Your task to perform on an android device: Add "macbook" to the cart on newegg.com, then select checkout. Image 0: 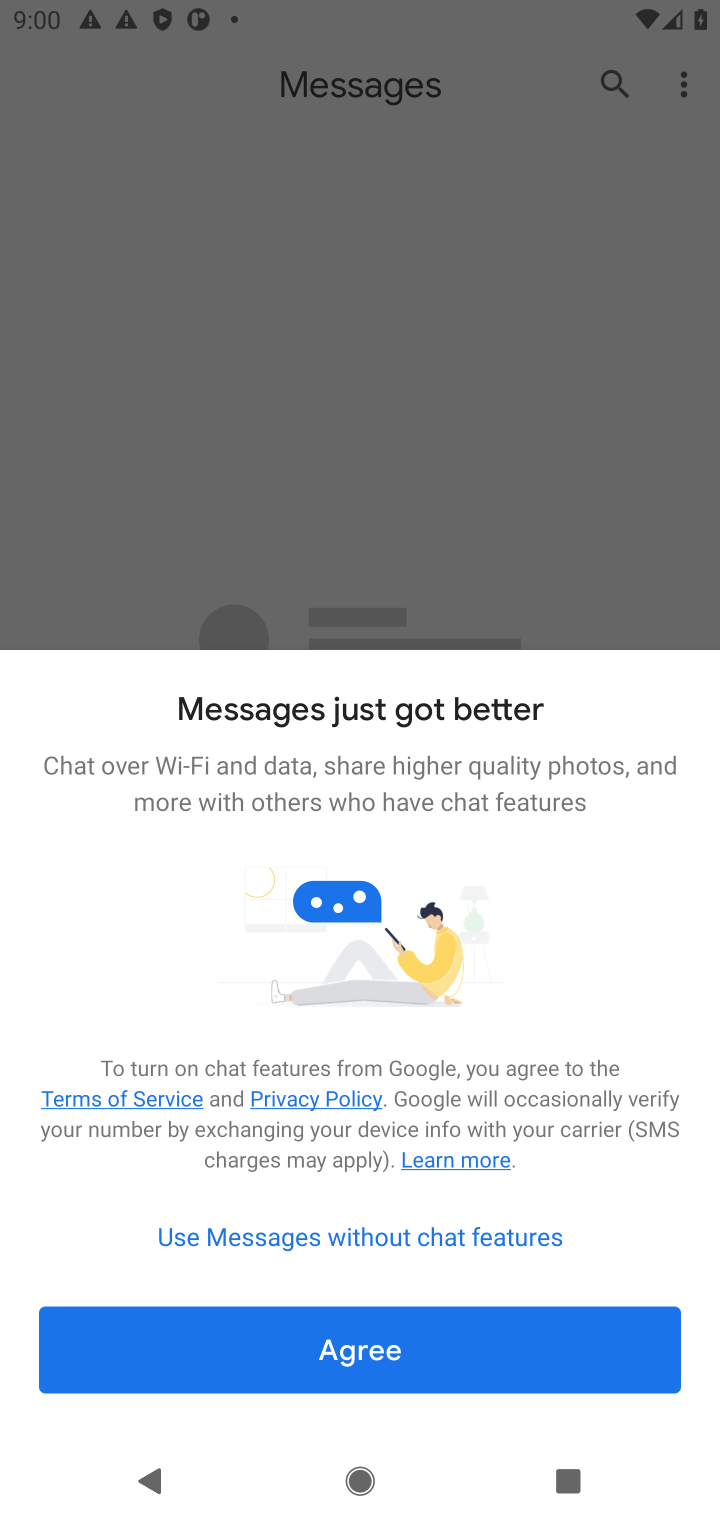
Step 0: press home button
Your task to perform on an android device: Add "macbook" to the cart on newegg.com, then select checkout. Image 1: 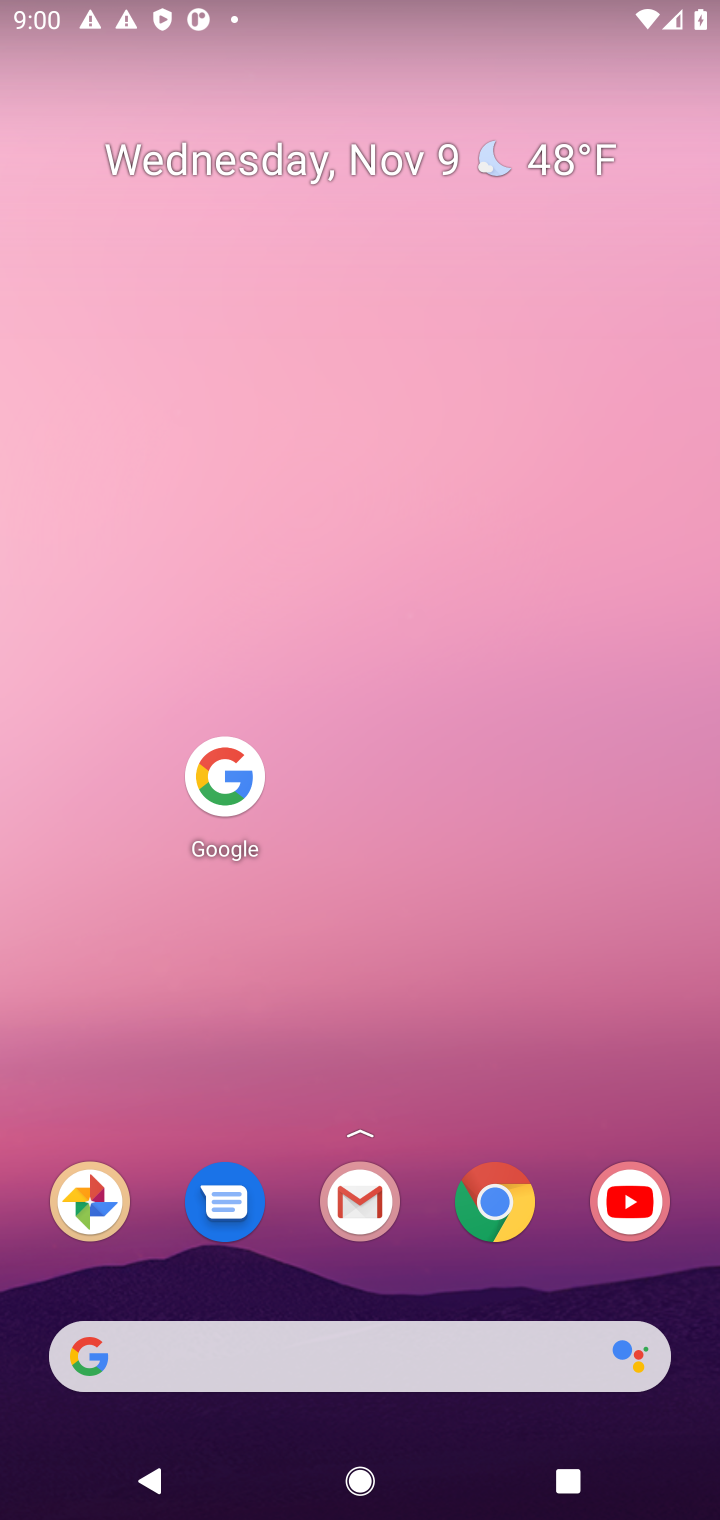
Step 1: click (208, 776)
Your task to perform on an android device: Add "macbook" to the cart on newegg.com, then select checkout. Image 2: 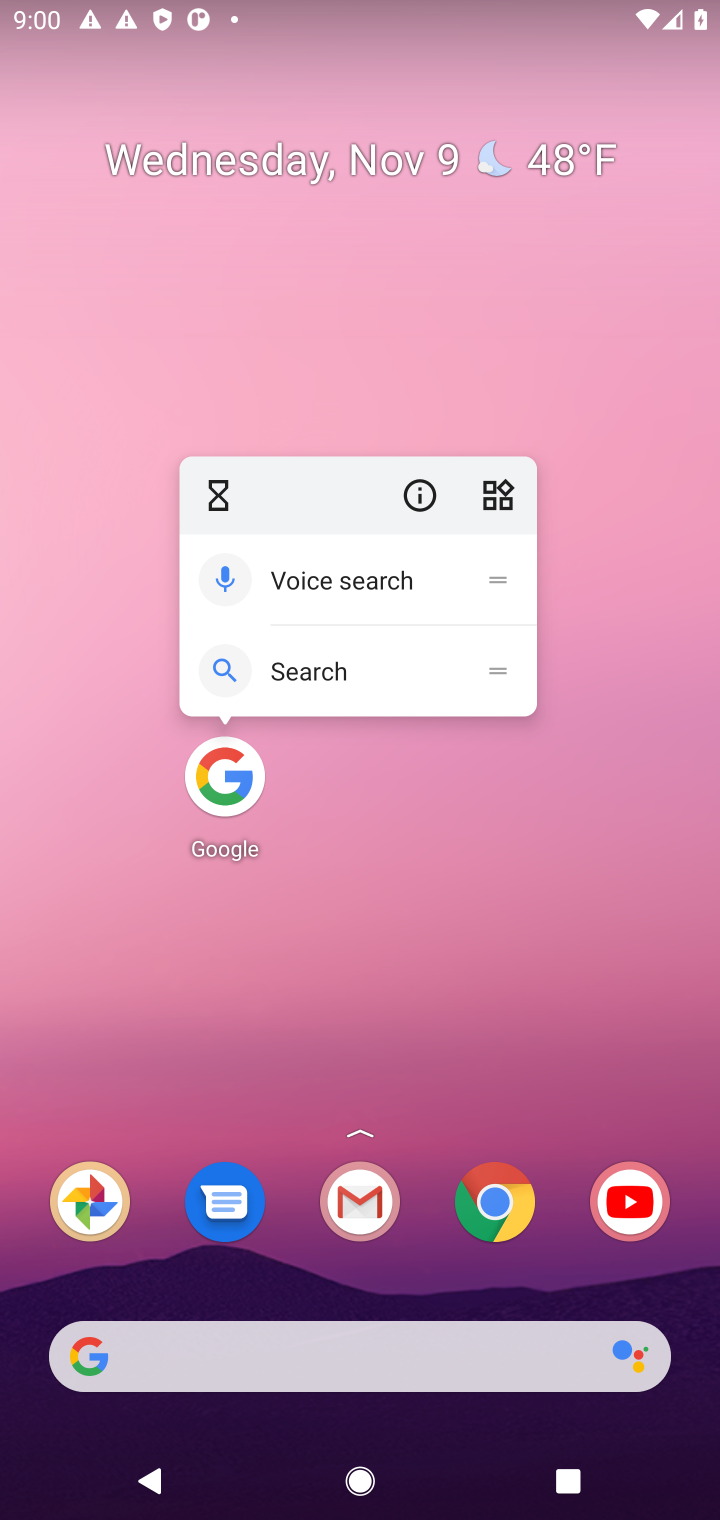
Step 2: click (230, 743)
Your task to perform on an android device: Add "macbook" to the cart on newegg.com, then select checkout. Image 3: 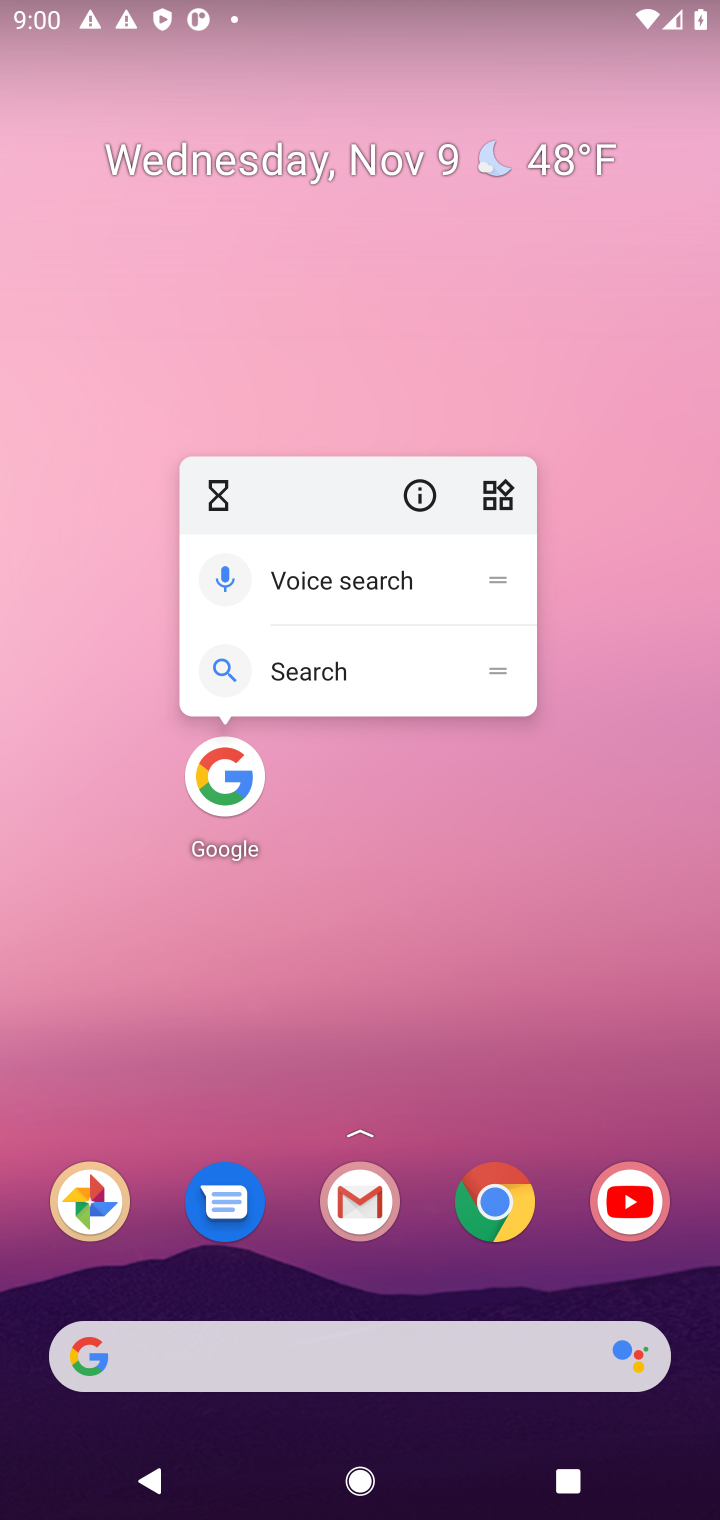
Step 3: click (202, 776)
Your task to perform on an android device: Add "macbook" to the cart on newegg.com, then select checkout. Image 4: 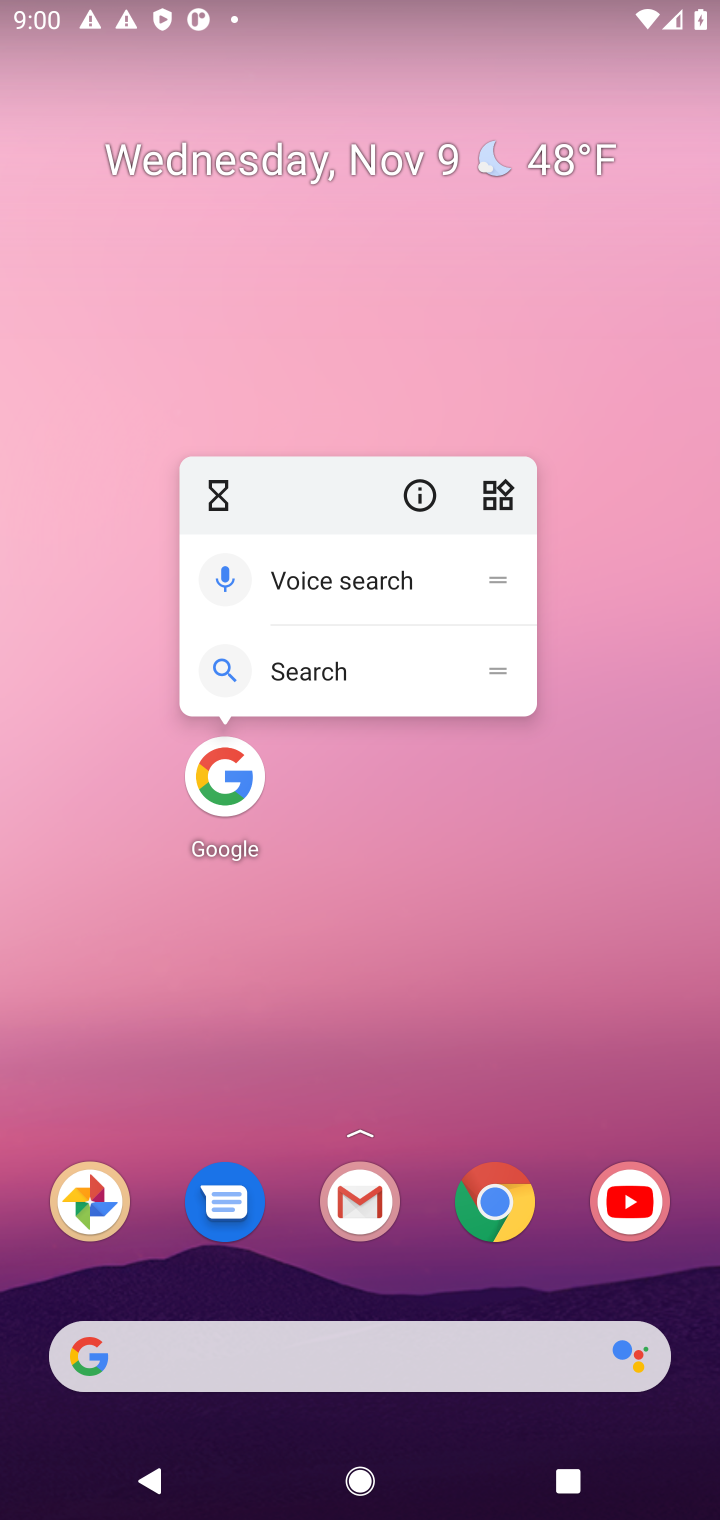
Step 4: click (213, 780)
Your task to perform on an android device: Add "macbook" to the cart on newegg.com, then select checkout. Image 5: 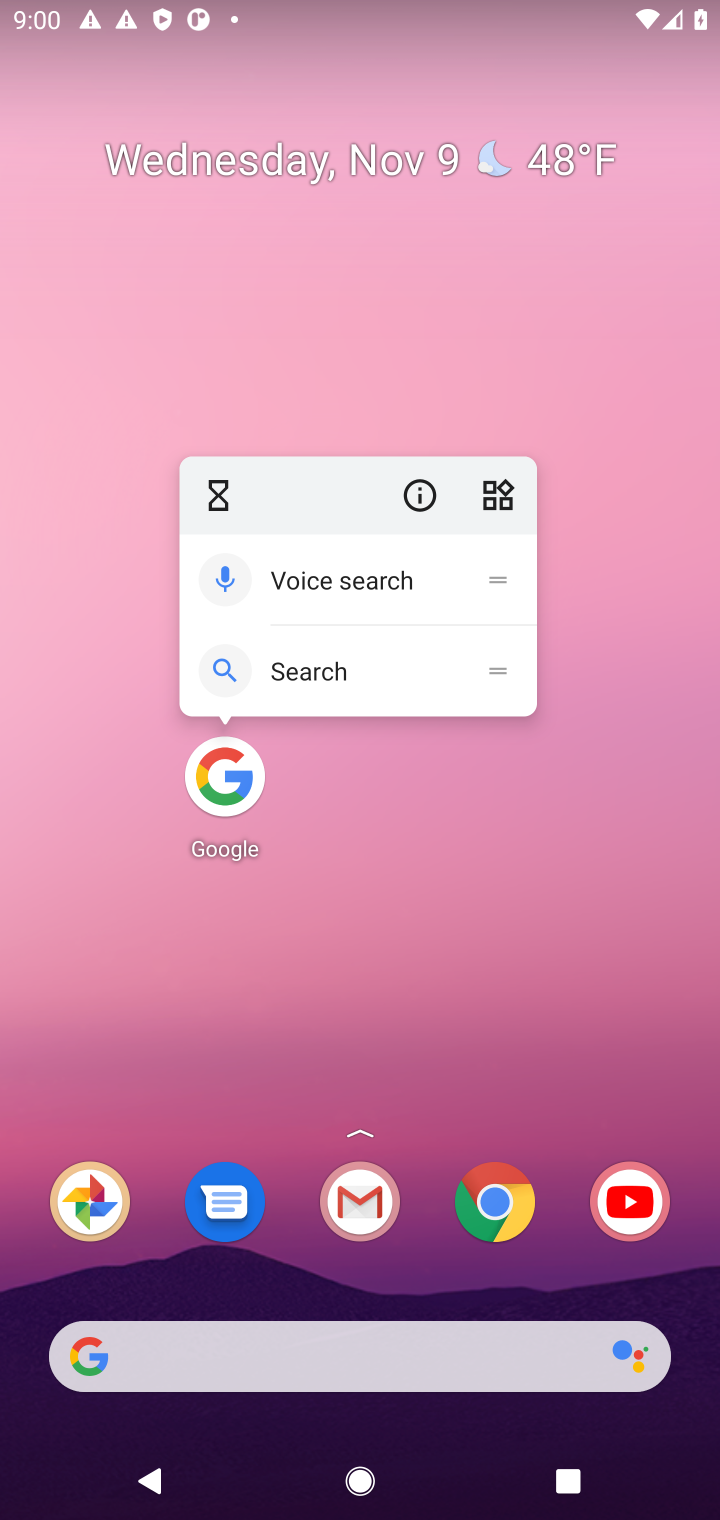
Step 5: click (213, 780)
Your task to perform on an android device: Add "macbook" to the cart on newegg.com, then select checkout. Image 6: 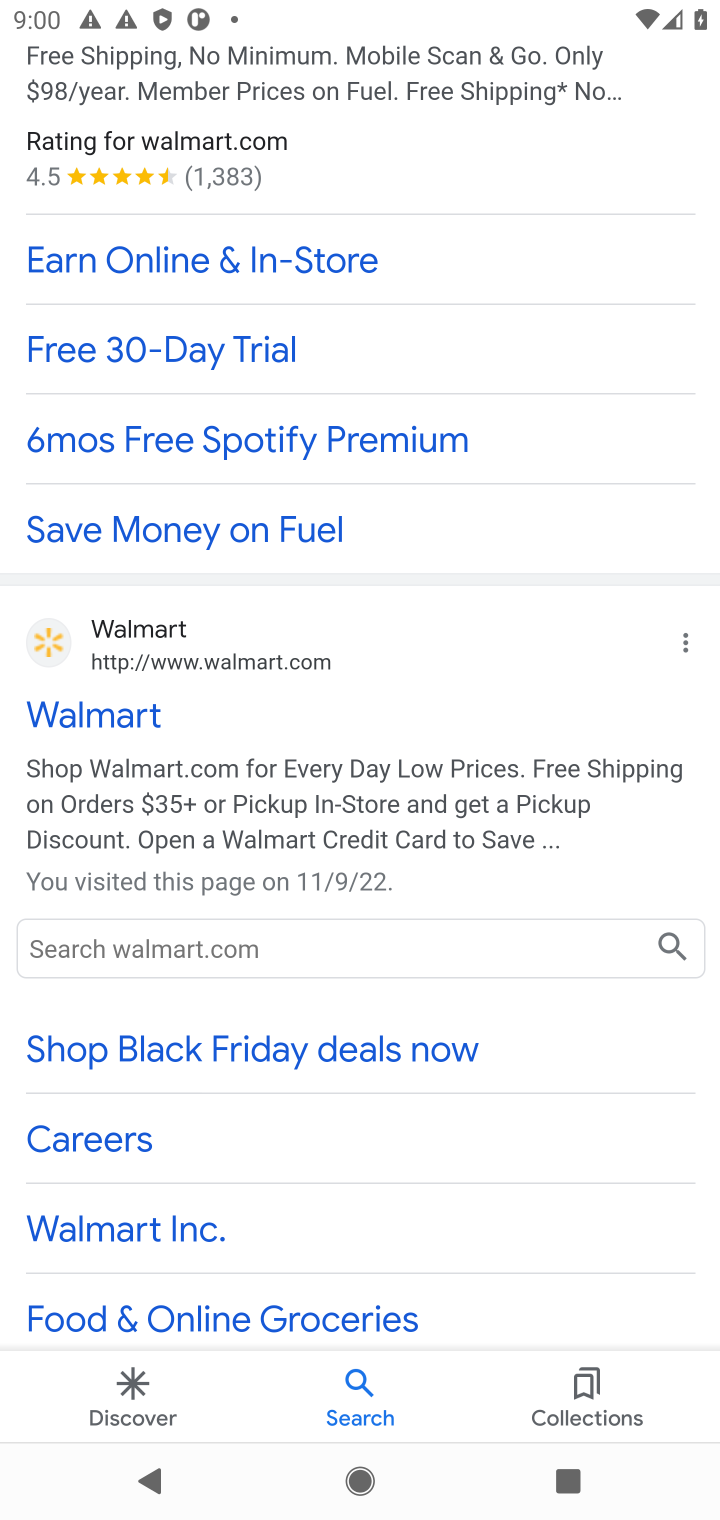
Step 6: drag from (549, 147) to (453, 1299)
Your task to perform on an android device: Add "macbook" to the cart on newegg.com, then select checkout. Image 7: 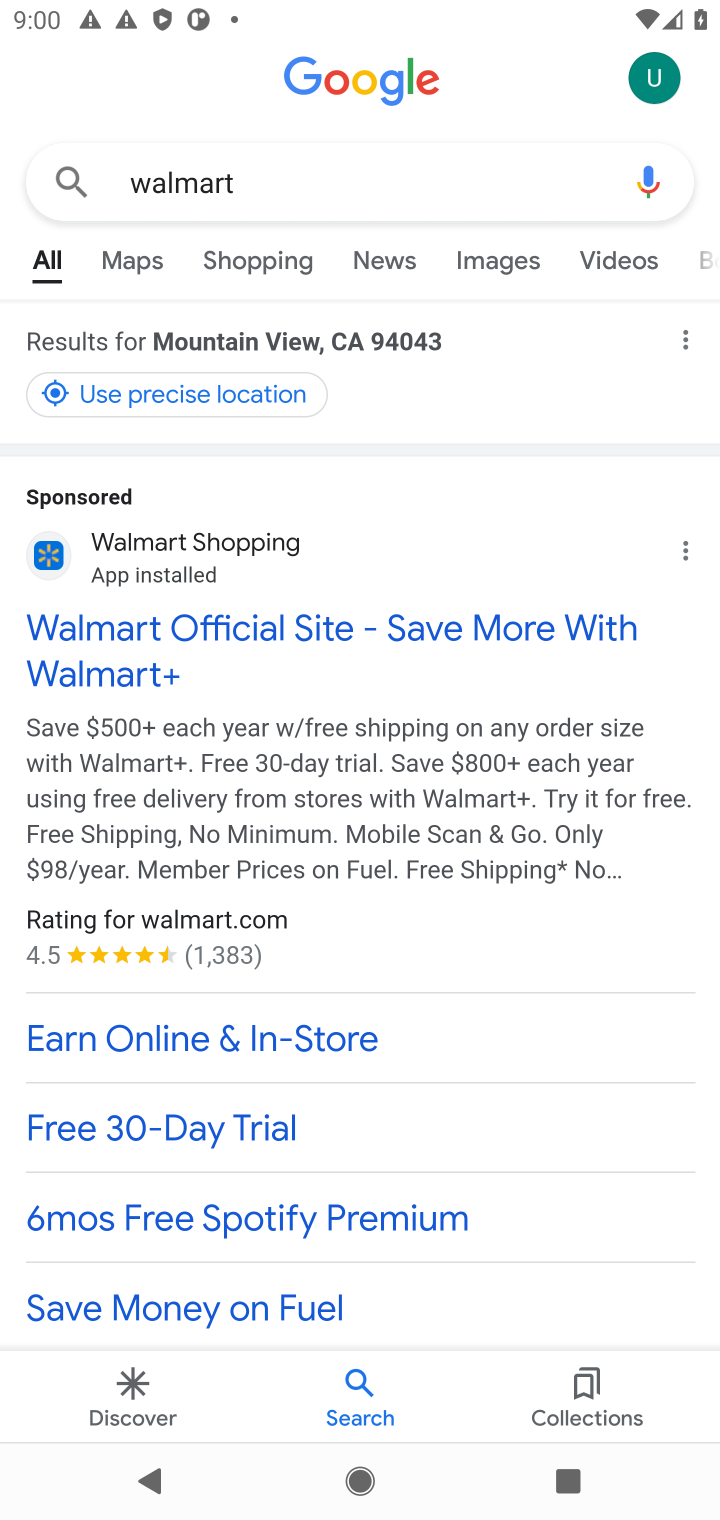
Step 7: click (331, 165)
Your task to perform on an android device: Add "macbook" to the cart on newegg.com, then select checkout. Image 8: 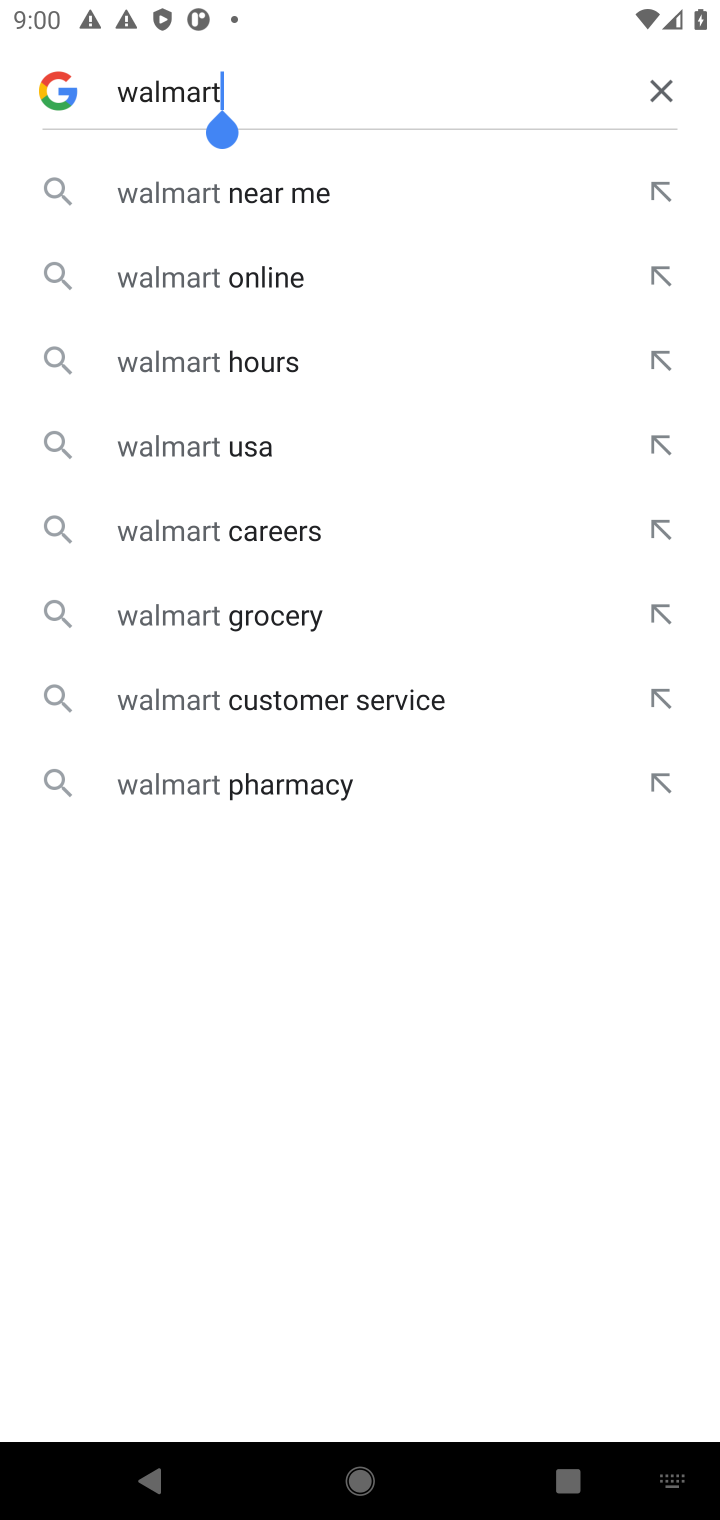
Step 8: click (651, 93)
Your task to perform on an android device: Add "macbook" to the cart on newegg.com, then select checkout. Image 9: 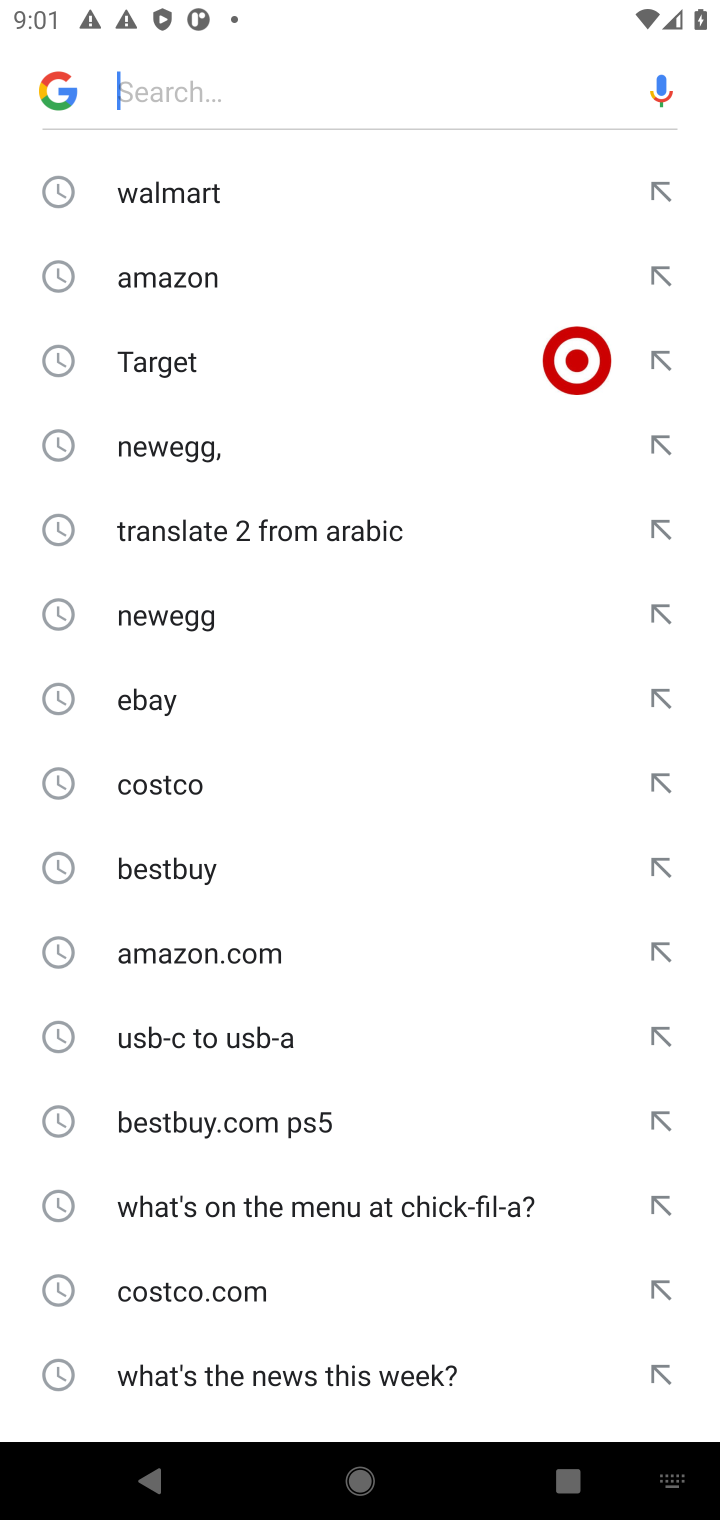
Step 9: click (109, 614)
Your task to perform on an android device: Add "macbook" to the cart on newegg.com, then select checkout. Image 10: 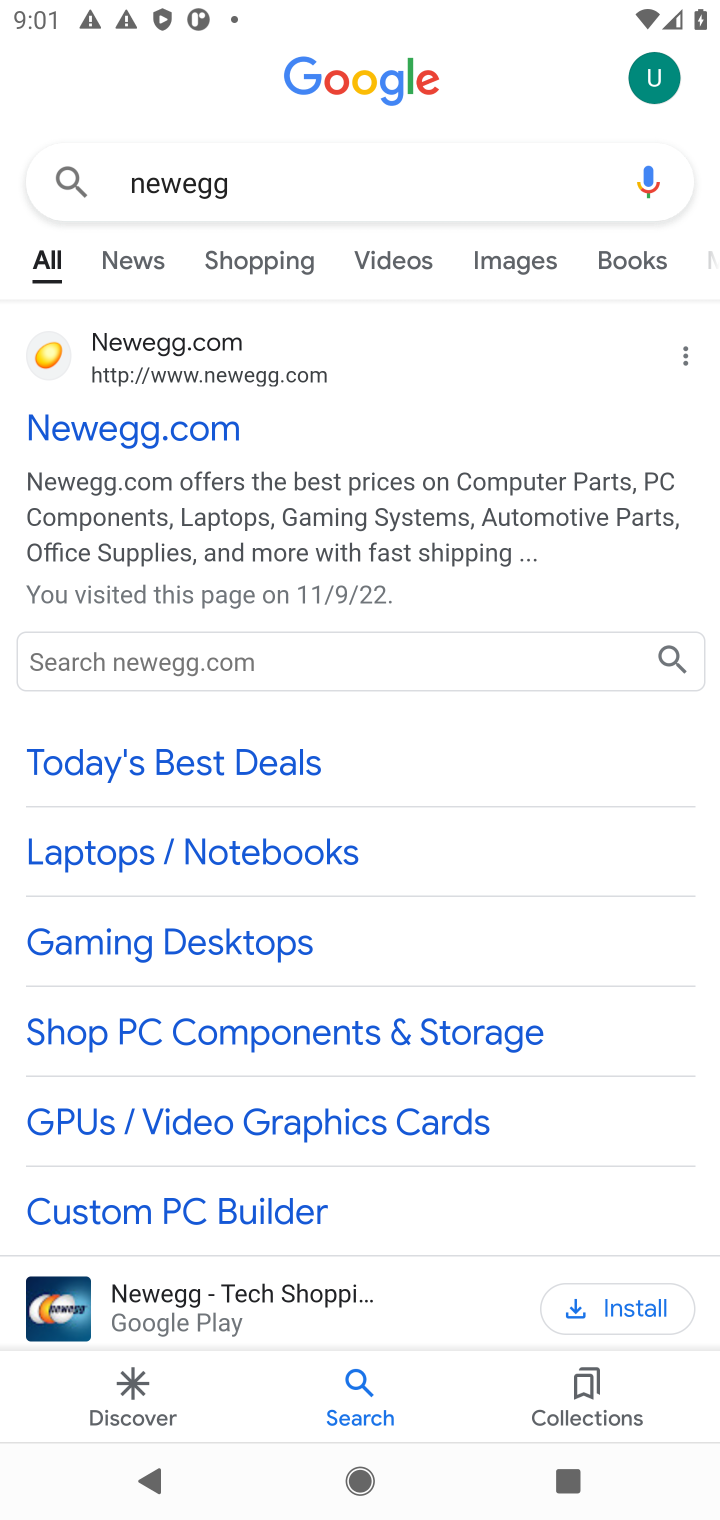
Step 10: click (182, 424)
Your task to perform on an android device: Add "macbook" to the cart on newegg.com, then select checkout. Image 11: 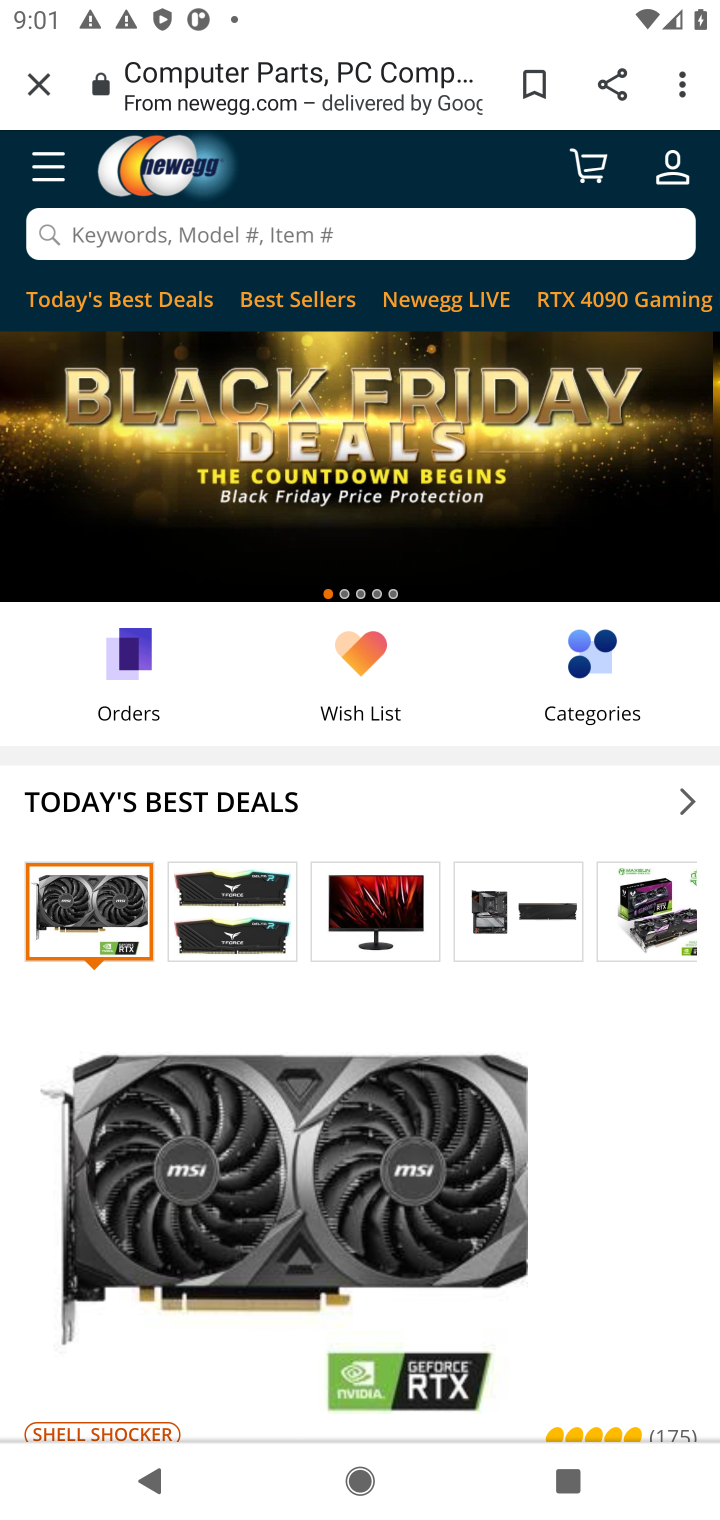
Step 11: click (173, 234)
Your task to perform on an android device: Add "macbook" to the cart on newegg.com, then select checkout. Image 12: 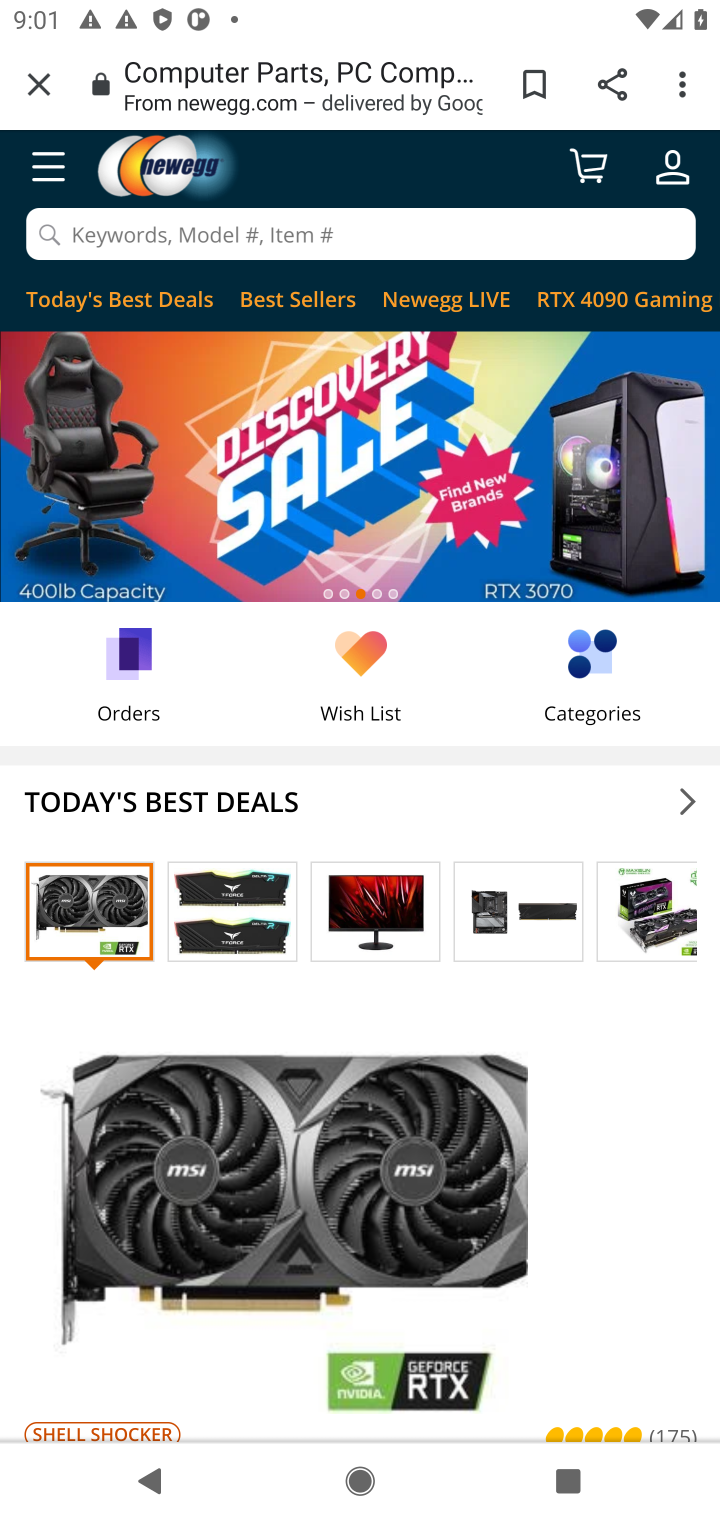
Step 12: click (173, 230)
Your task to perform on an android device: Add "macbook" to the cart on newegg.com, then select checkout. Image 13: 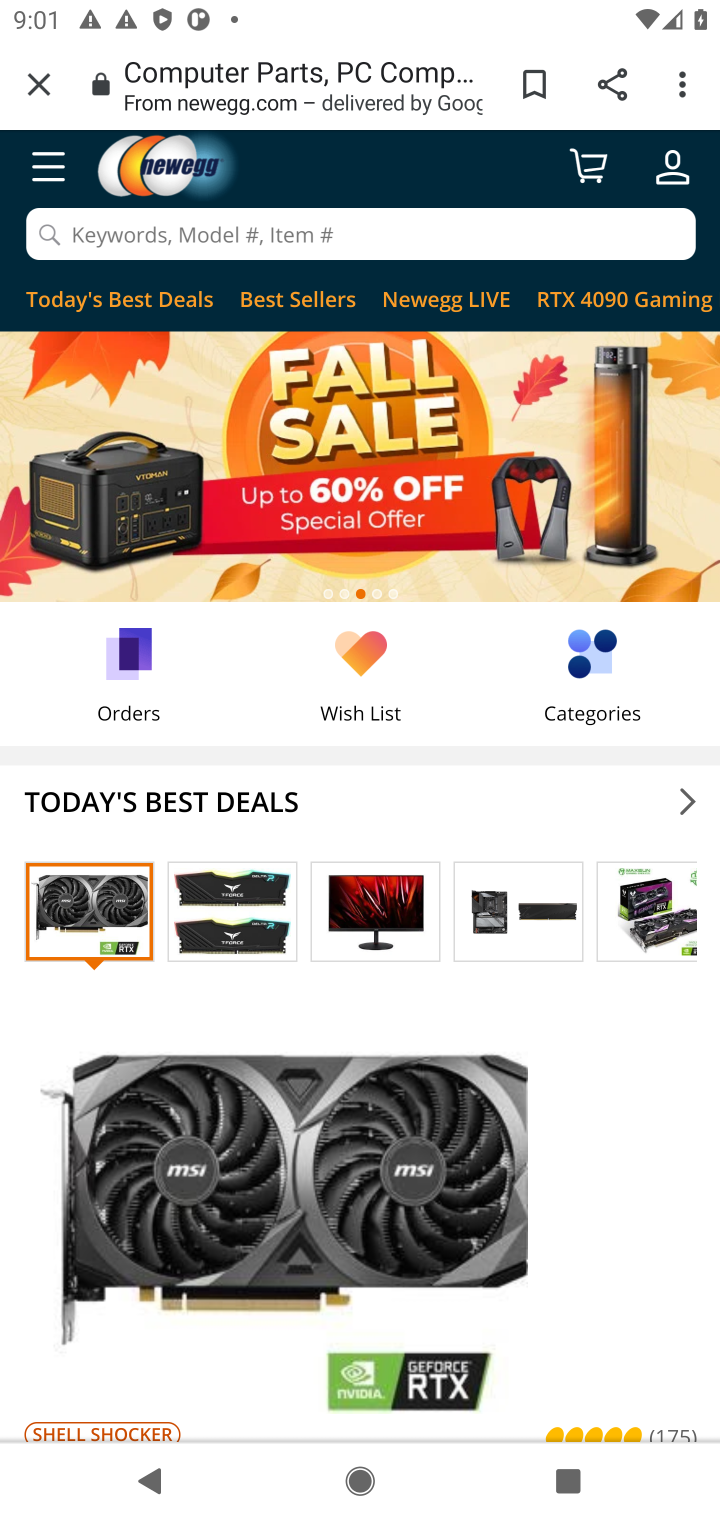
Step 13: click (292, 237)
Your task to perform on an android device: Add "macbook" to the cart on newegg.com, then select checkout. Image 14: 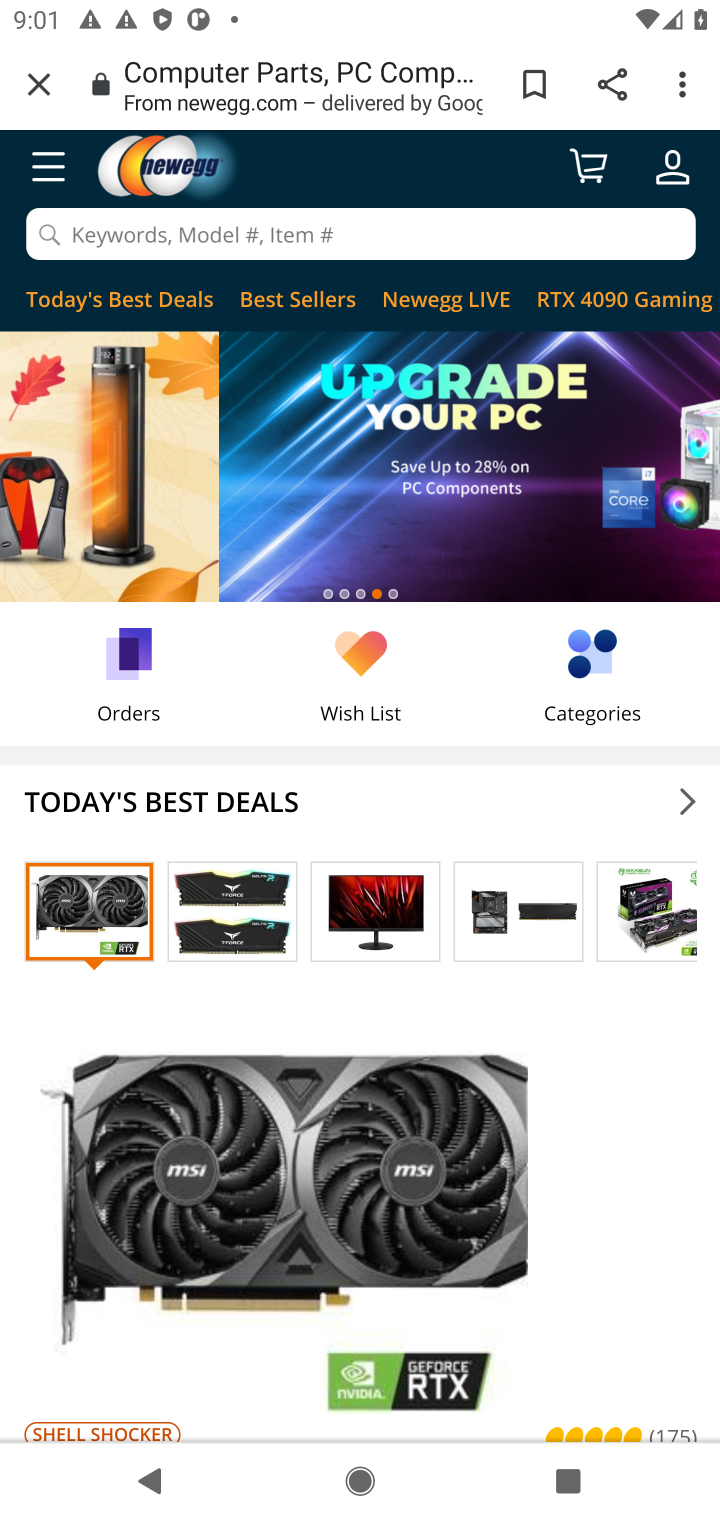
Step 14: click (333, 225)
Your task to perform on an android device: Add "macbook" to the cart on newegg.com, then select checkout. Image 15: 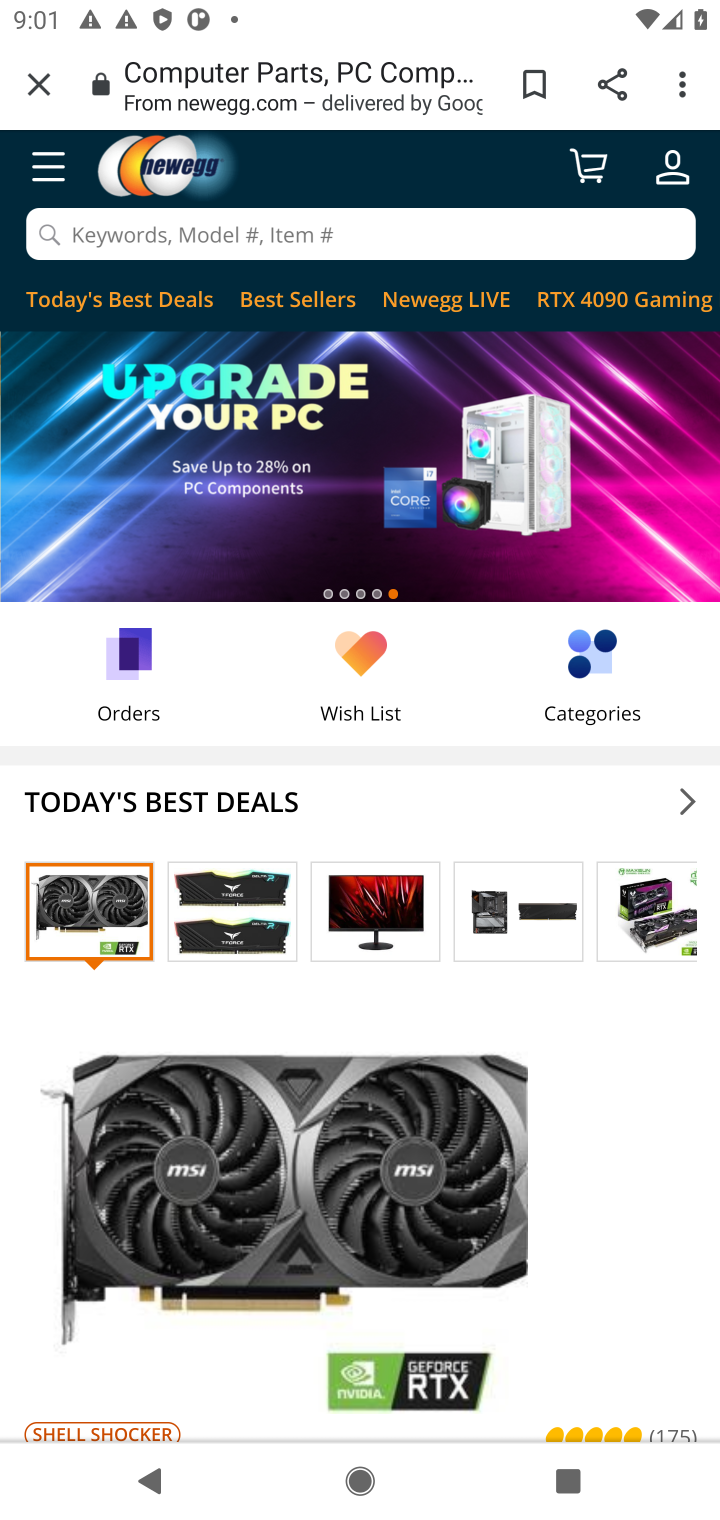
Step 15: click (394, 229)
Your task to perform on an android device: Add "macbook" to the cart on newegg.com, then select checkout. Image 16: 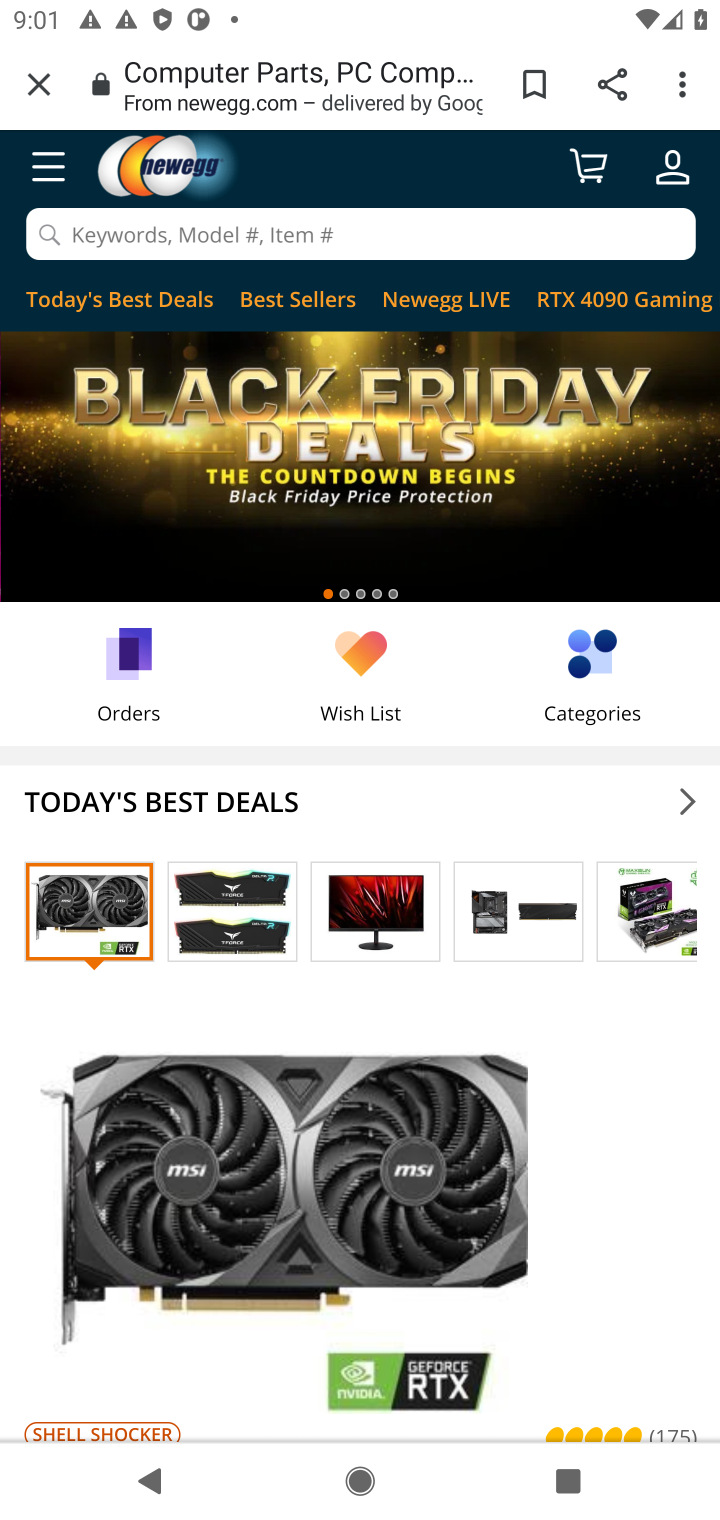
Step 16: click (50, 228)
Your task to perform on an android device: Add "macbook" to the cart on newegg.com, then select checkout. Image 17: 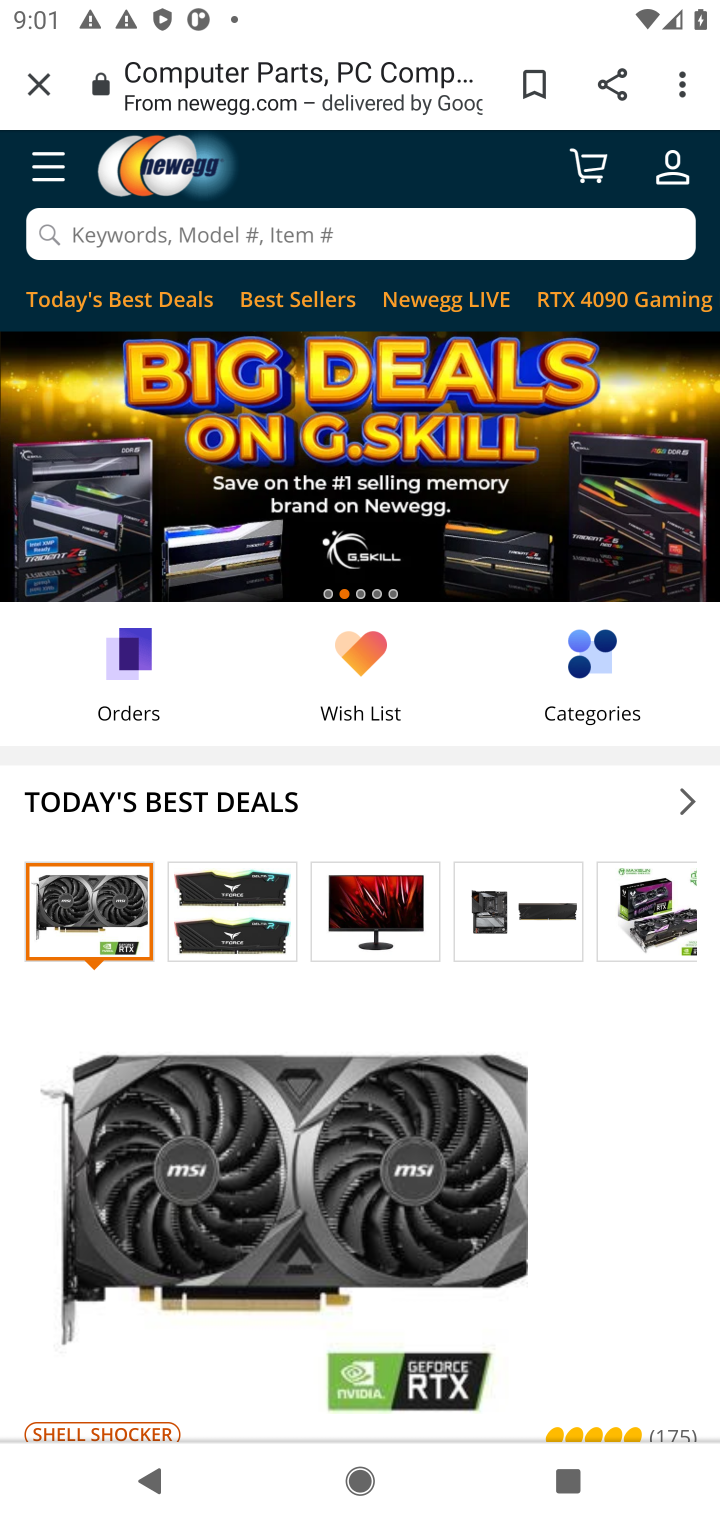
Step 17: click (391, 237)
Your task to perform on an android device: Add "macbook" to the cart on newegg.com, then select checkout. Image 18: 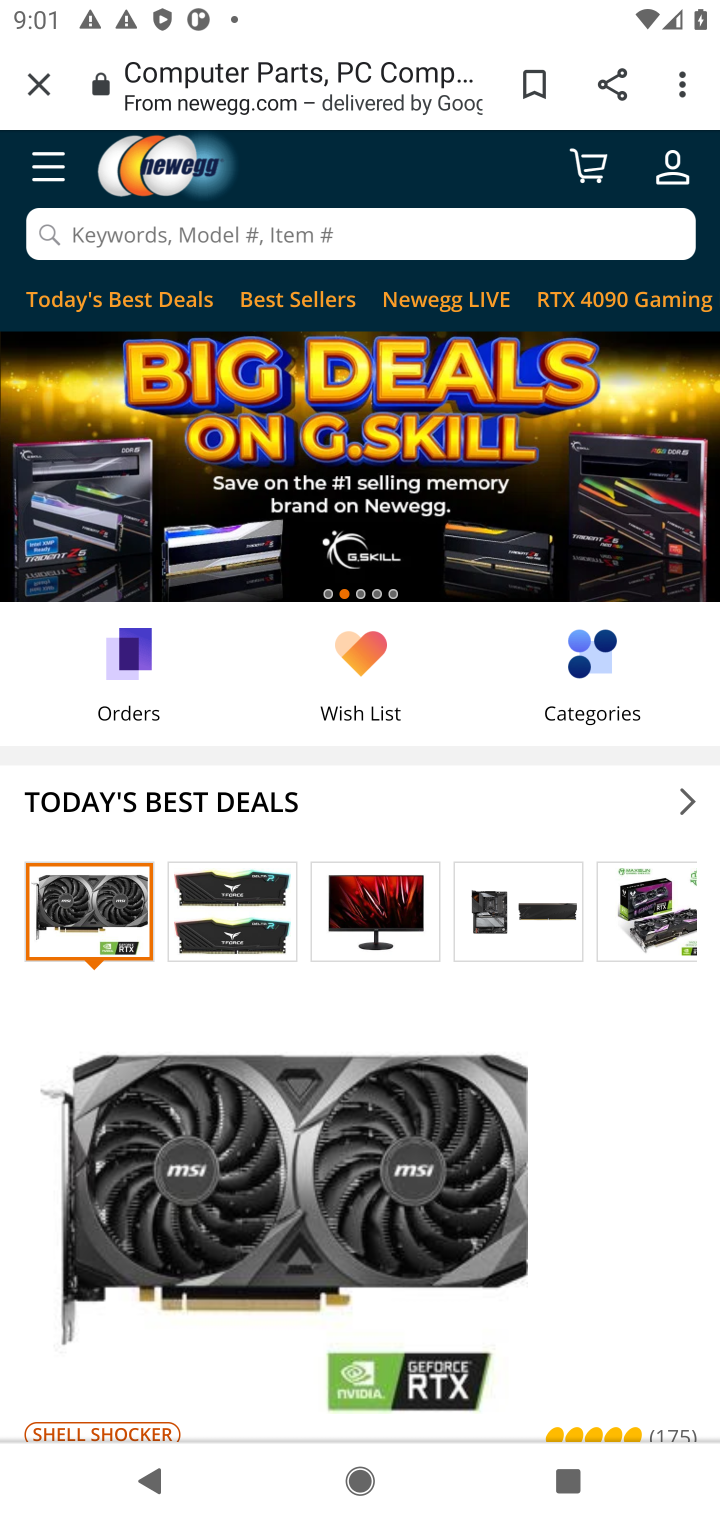
Step 18: click (528, 221)
Your task to perform on an android device: Add "macbook" to the cart on newegg.com, then select checkout. Image 19: 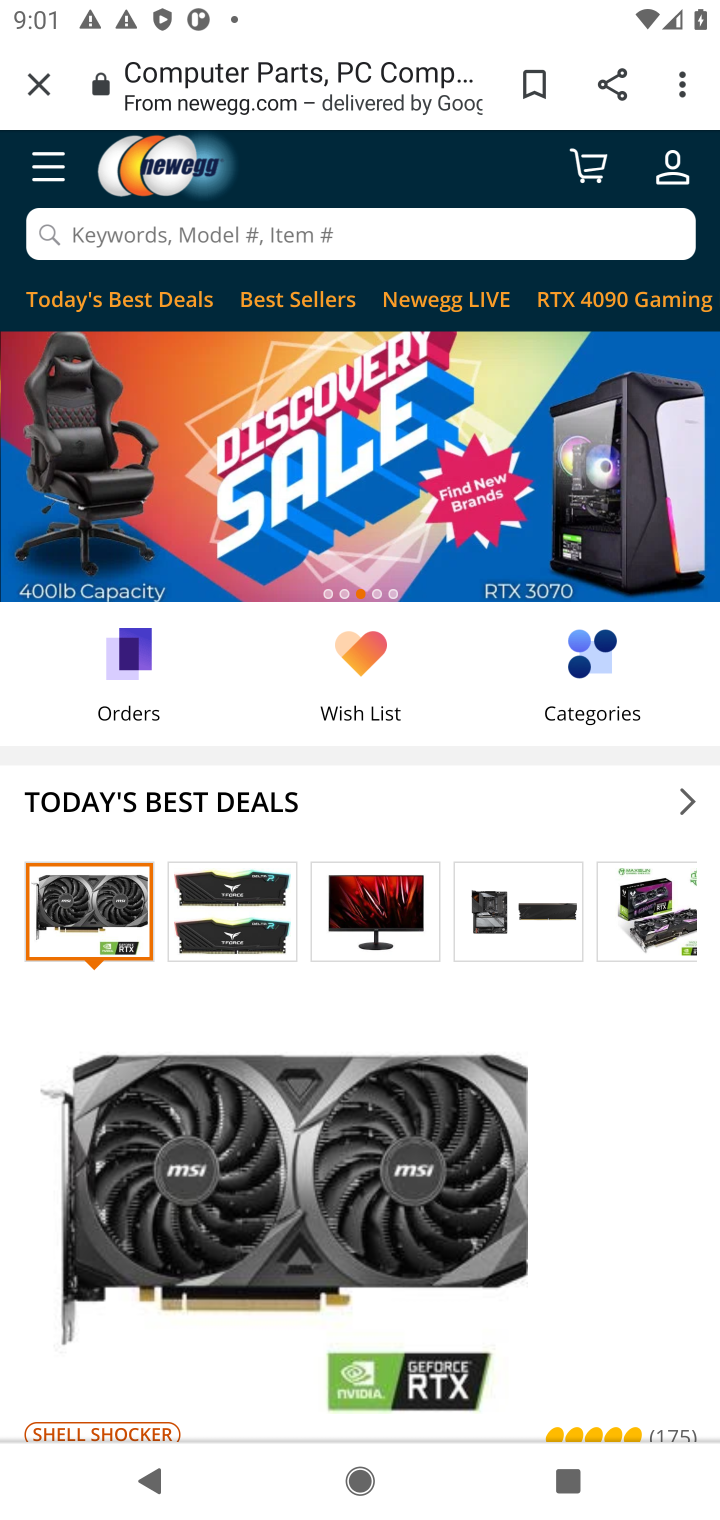
Step 19: click (490, 233)
Your task to perform on an android device: Add "macbook" to the cart on newegg.com, then select checkout. Image 20: 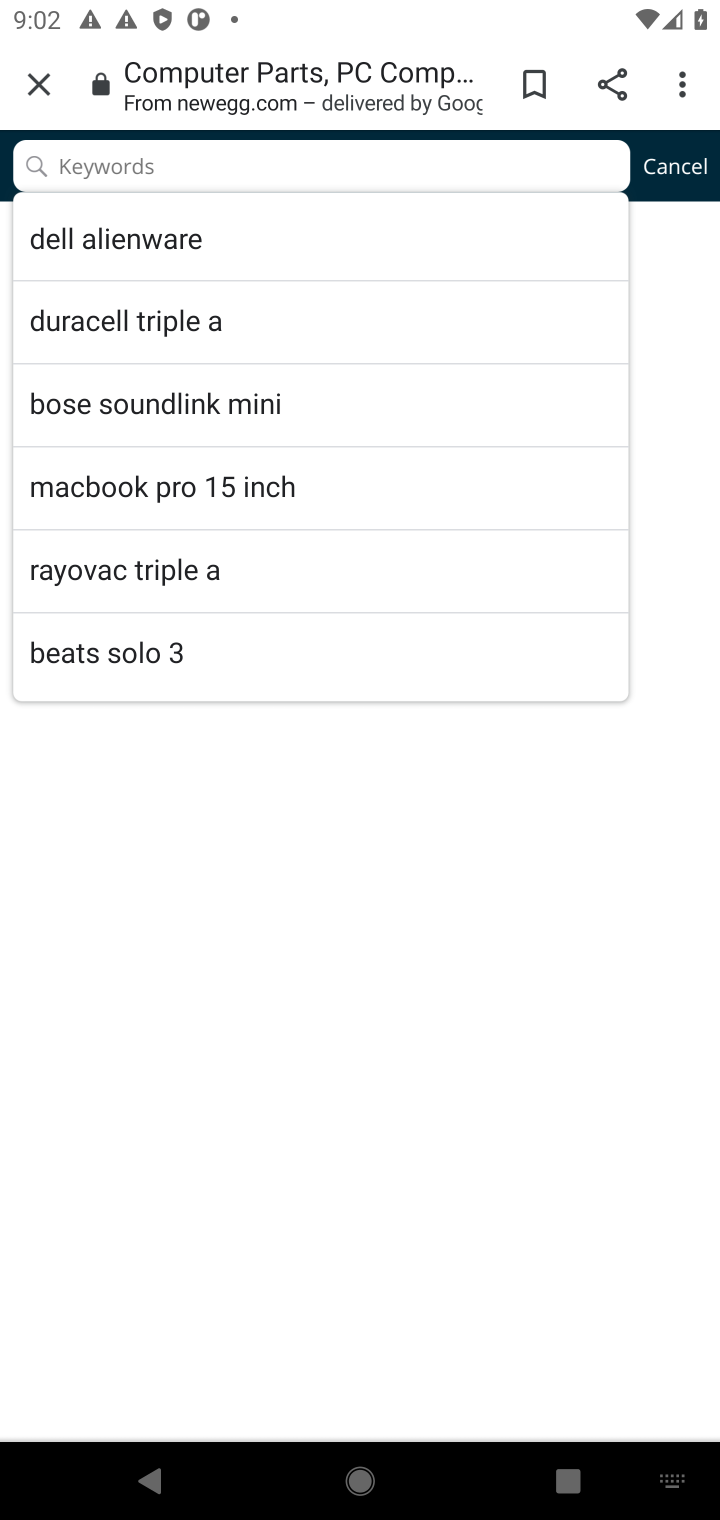
Step 20: type "macbook"
Your task to perform on an android device: Add "macbook" to the cart on newegg.com, then select checkout. Image 21: 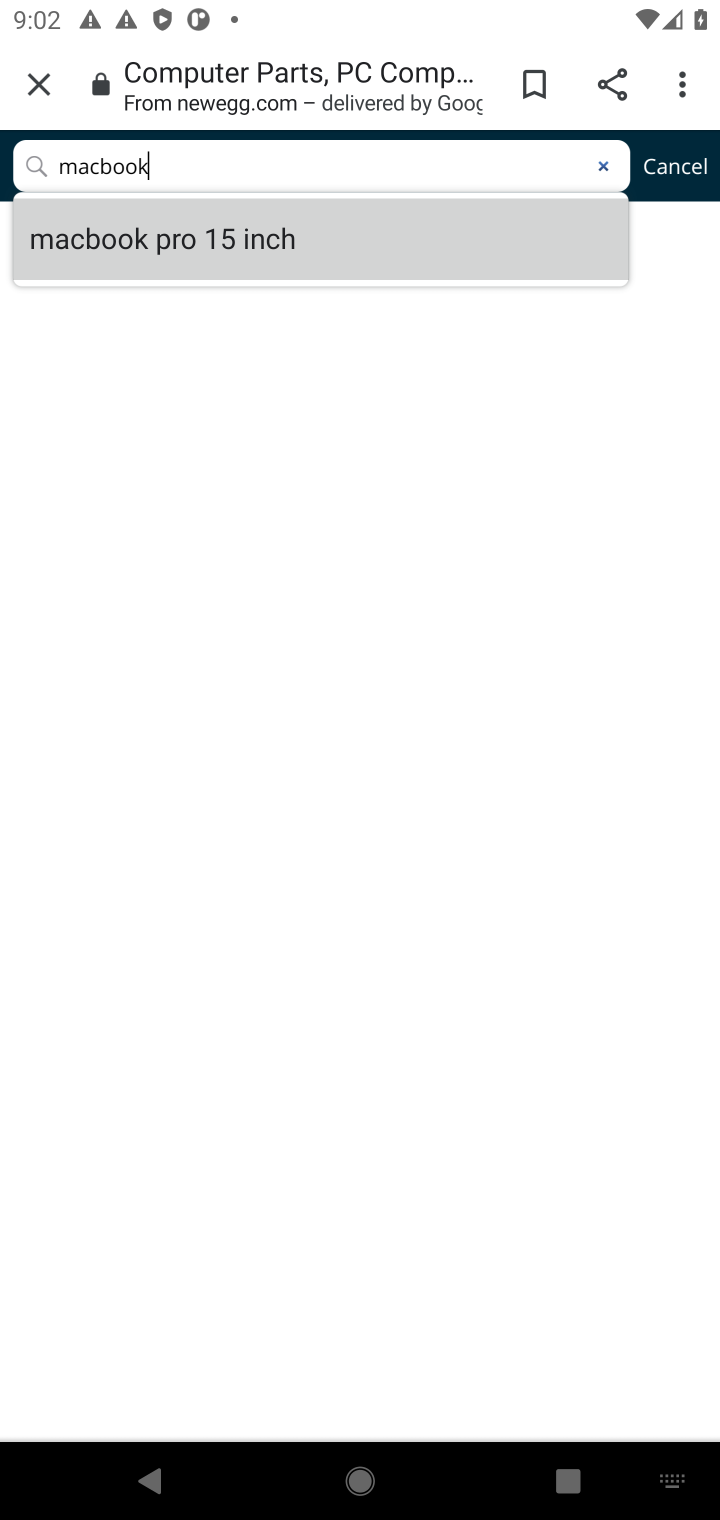
Step 21: press enter
Your task to perform on an android device: Add "macbook" to the cart on newegg.com, then select checkout. Image 22: 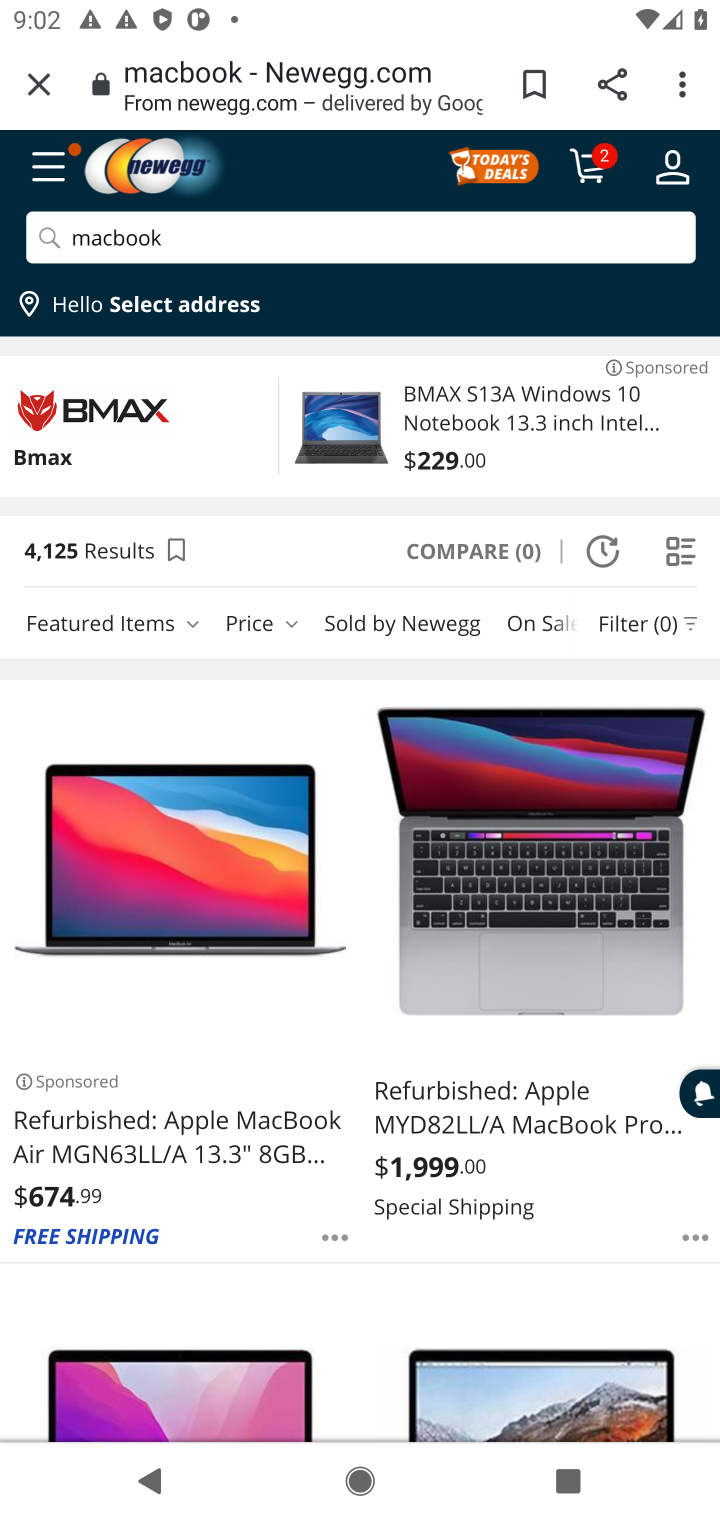
Step 22: drag from (290, 1104) to (604, 623)
Your task to perform on an android device: Add "macbook" to the cart on newegg.com, then select checkout. Image 23: 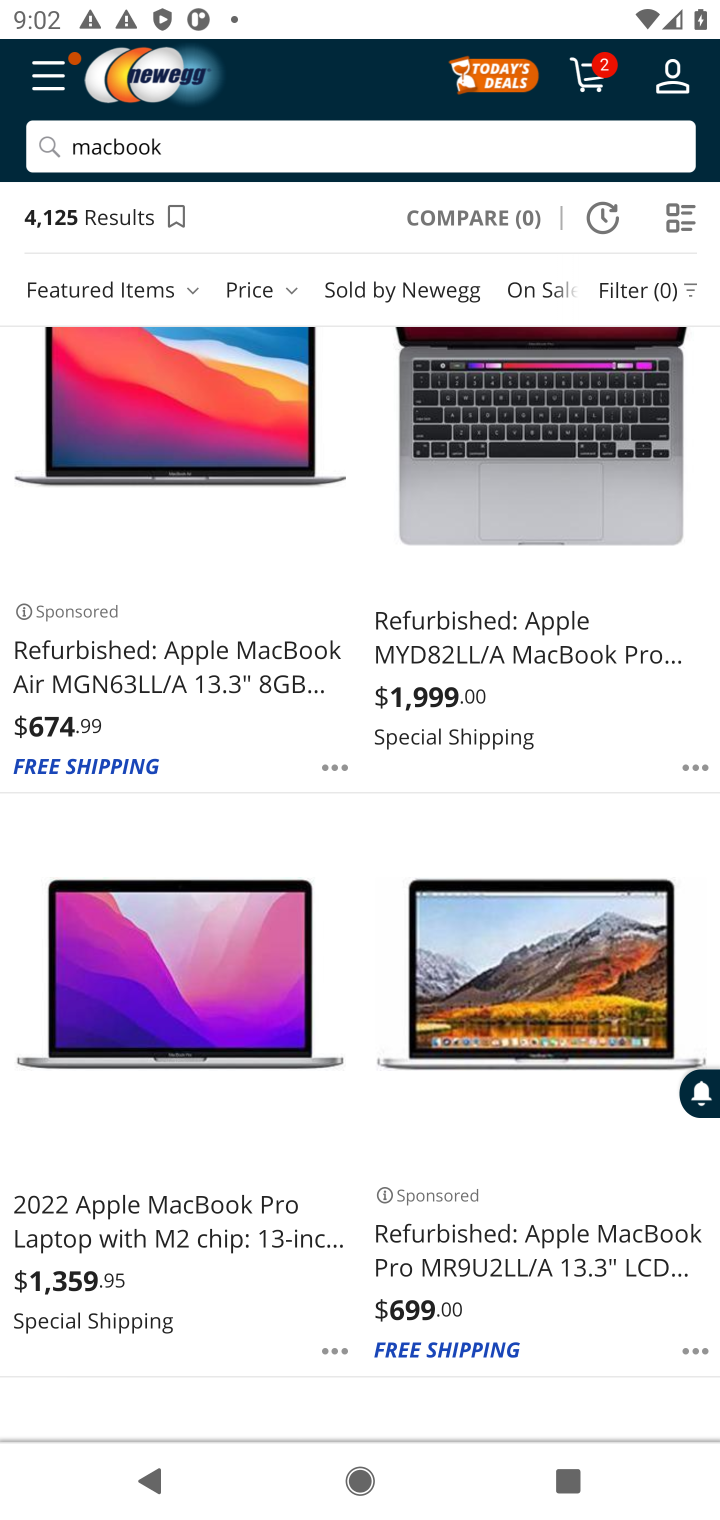
Step 23: click (154, 653)
Your task to perform on an android device: Add "macbook" to the cart on newegg.com, then select checkout. Image 24: 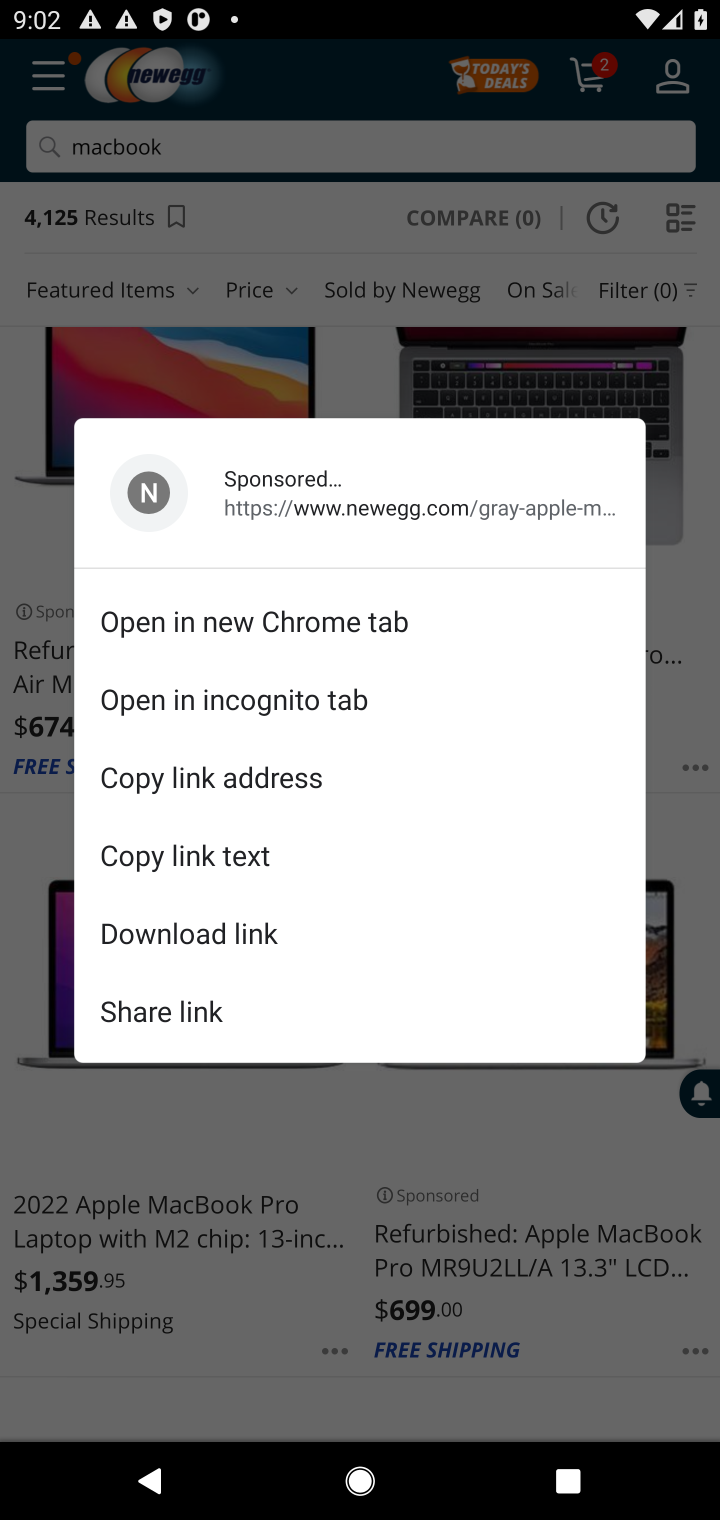
Step 24: click (25, 676)
Your task to perform on an android device: Add "macbook" to the cart on newegg.com, then select checkout. Image 25: 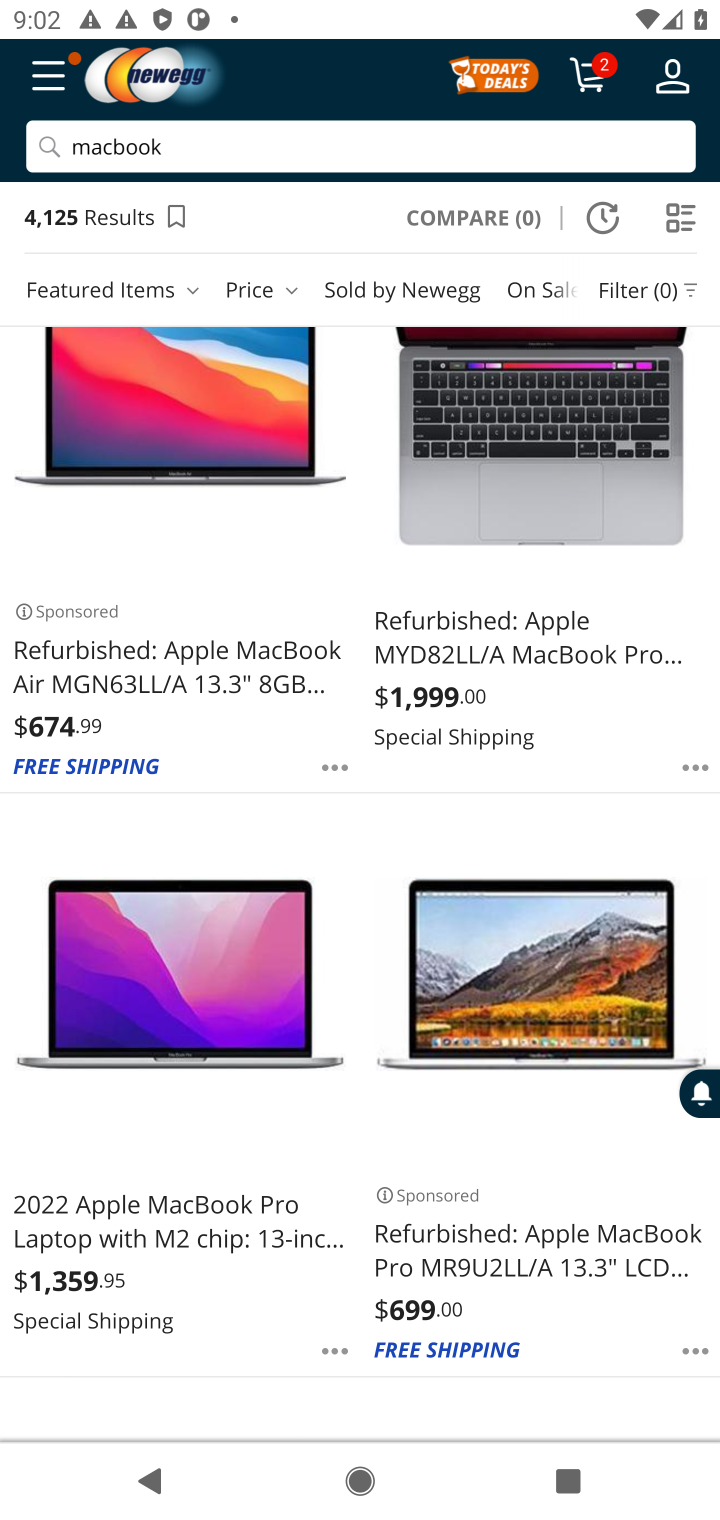
Step 25: click (252, 452)
Your task to perform on an android device: Add "macbook" to the cart on newegg.com, then select checkout. Image 26: 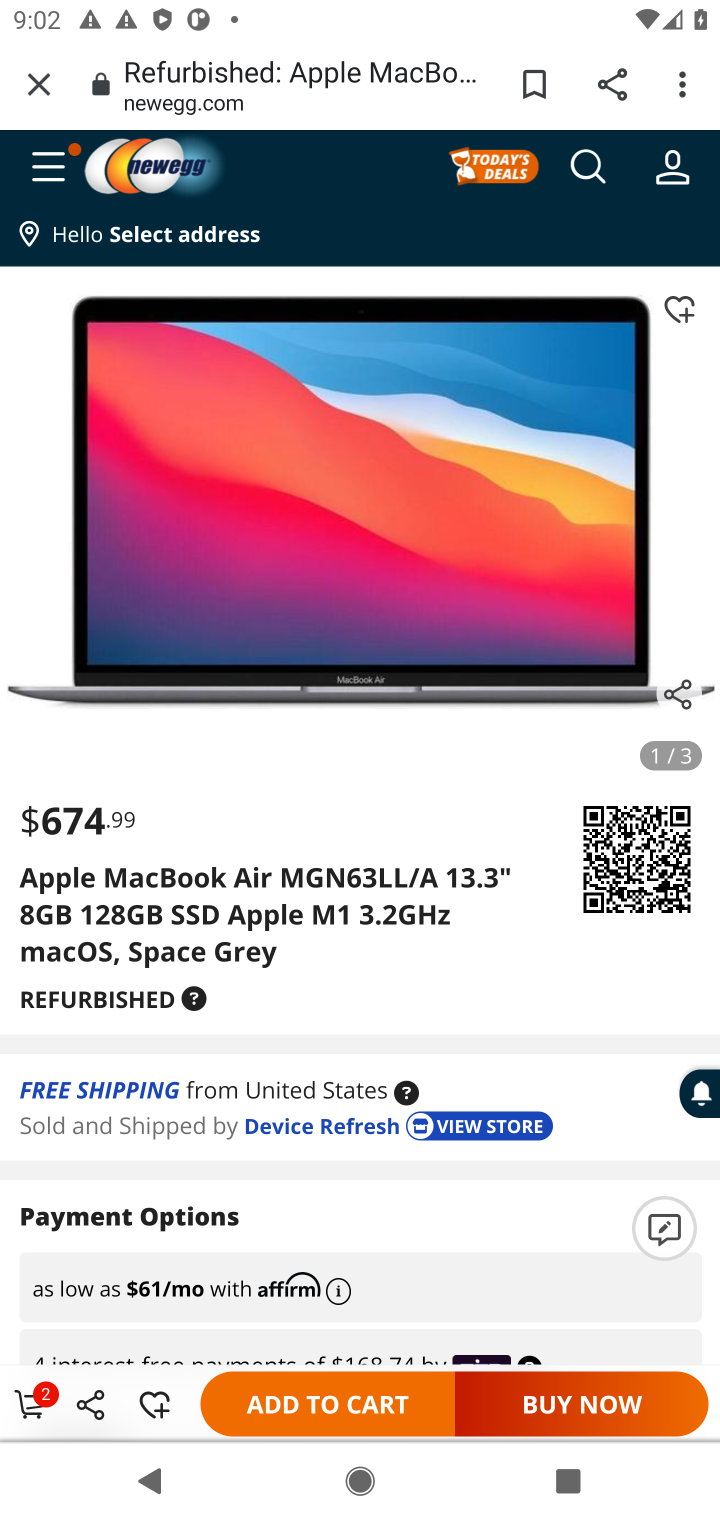
Step 26: click (394, 1399)
Your task to perform on an android device: Add "macbook" to the cart on newegg.com, then select checkout. Image 27: 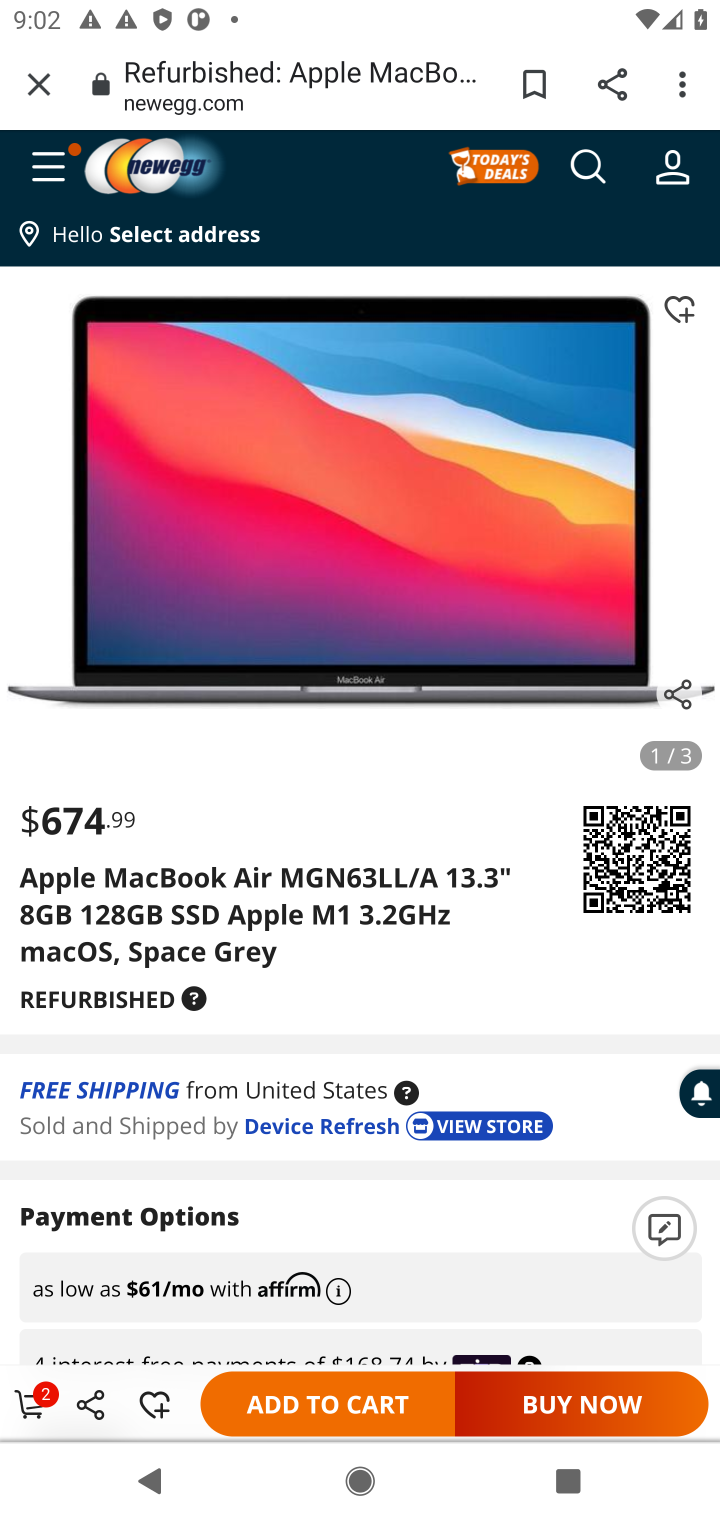
Step 27: click (346, 1408)
Your task to perform on an android device: Add "macbook" to the cart on newegg.com, then select checkout. Image 28: 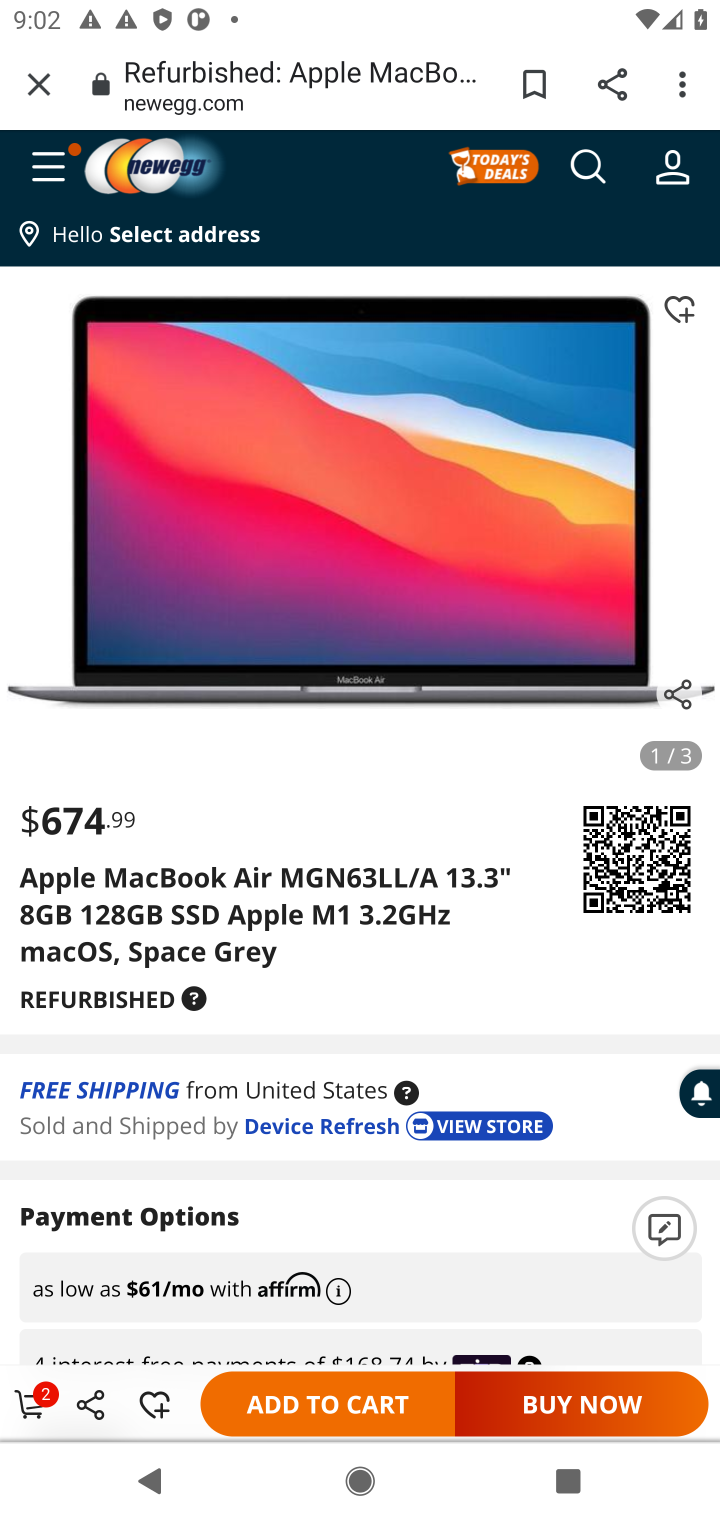
Step 28: click (298, 1398)
Your task to perform on an android device: Add "macbook" to the cart on newegg.com, then select checkout. Image 29: 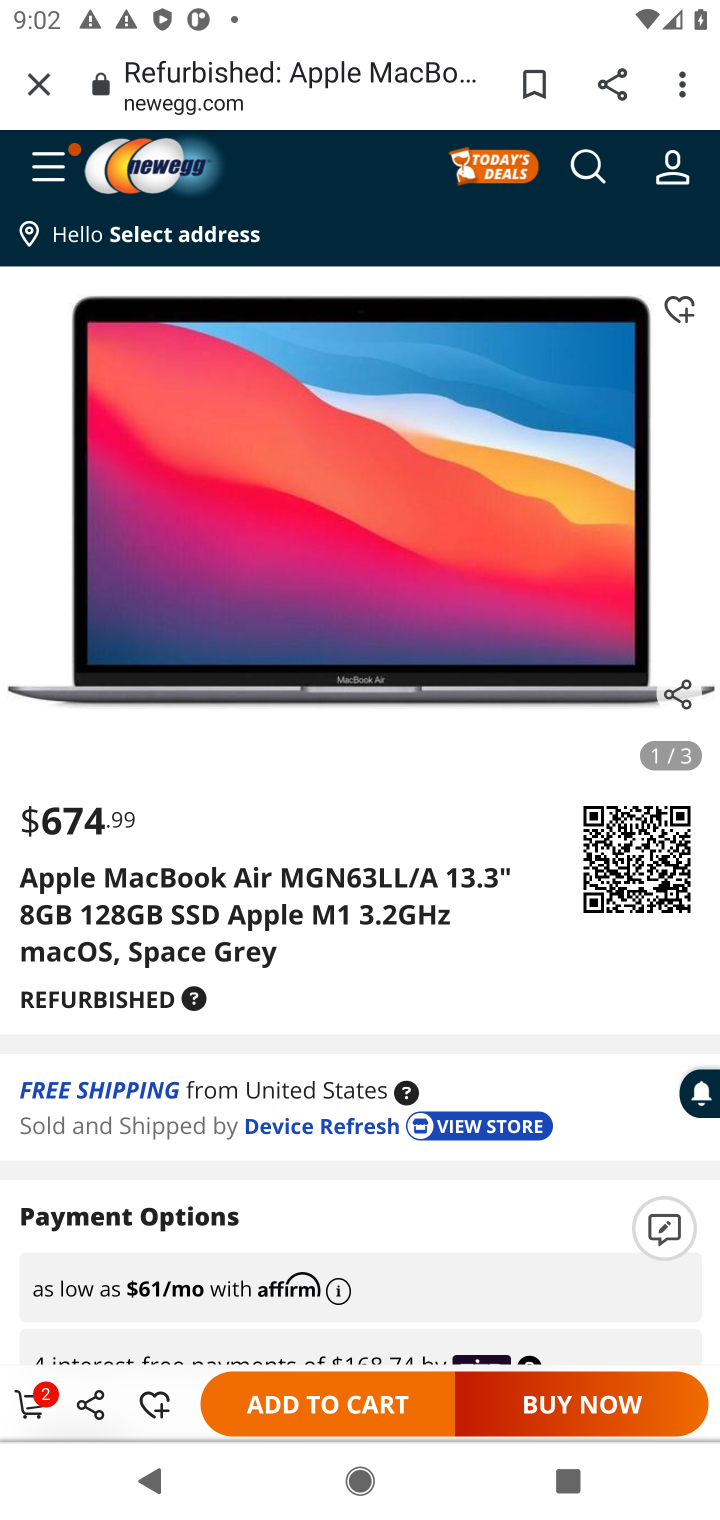
Step 29: drag from (366, 1121) to (710, 264)
Your task to perform on an android device: Add "macbook" to the cart on newegg.com, then select checkout. Image 30: 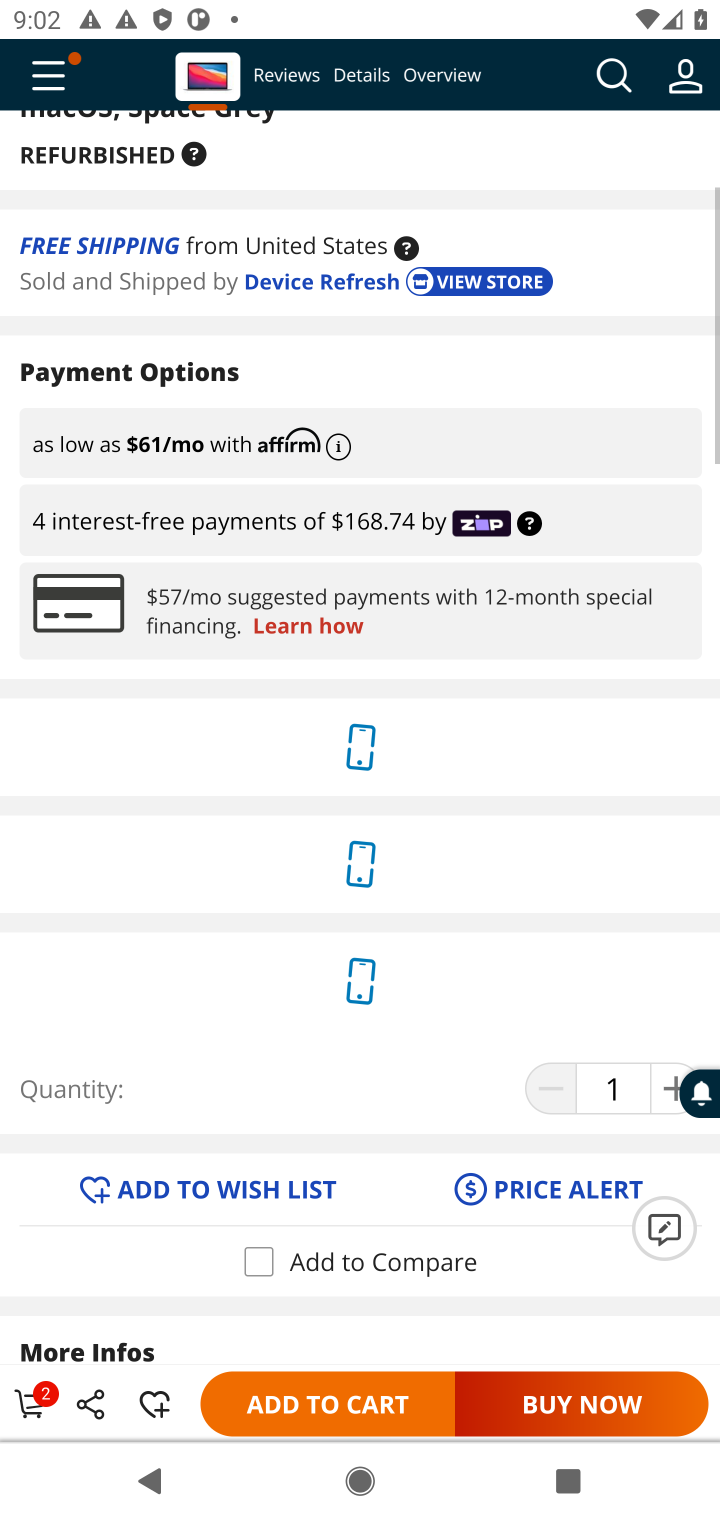
Step 30: click (336, 1409)
Your task to perform on an android device: Add "macbook" to the cart on newegg.com, then select checkout. Image 31: 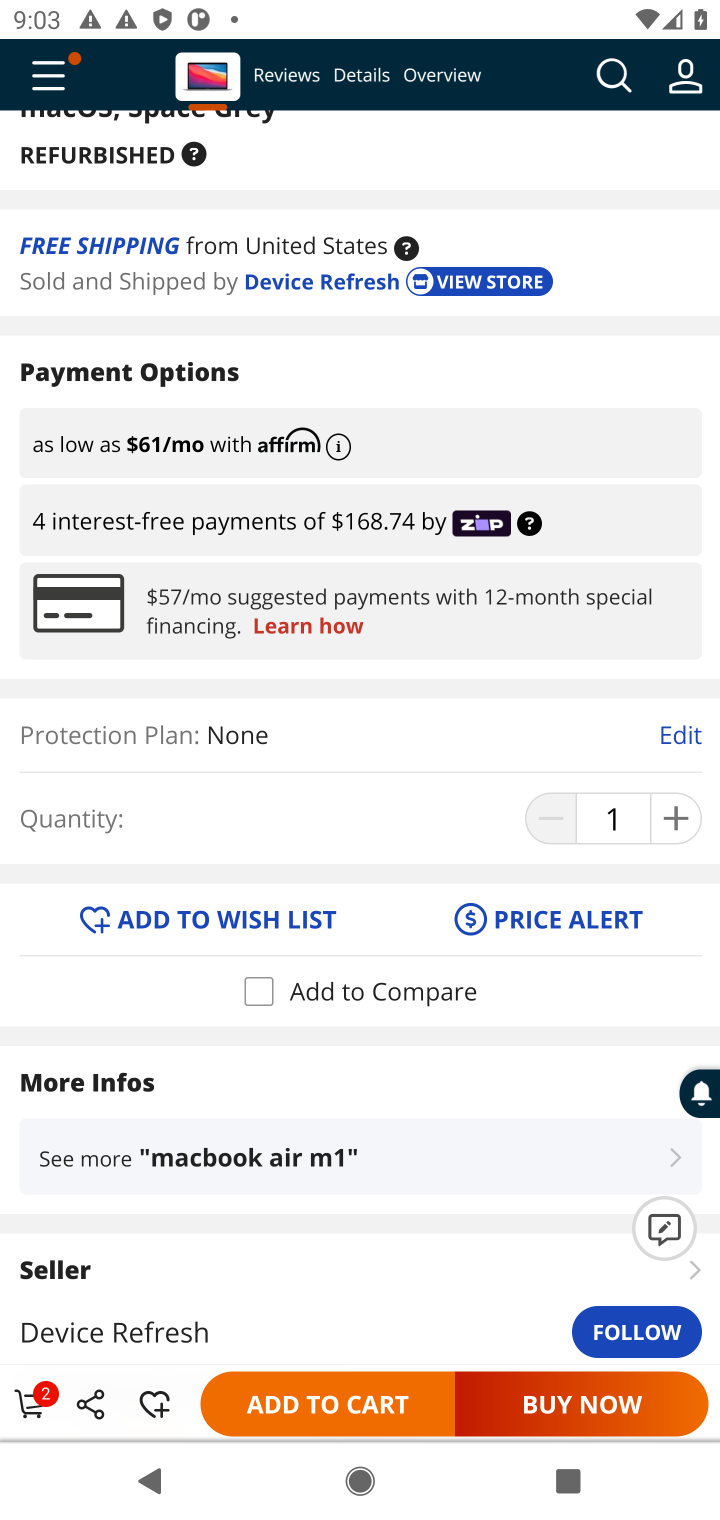
Step 31: click (339, 1403)
Your task to perform on an android device: Add "macbook" to the cart on newegg.com, then select checkout. Image 32: 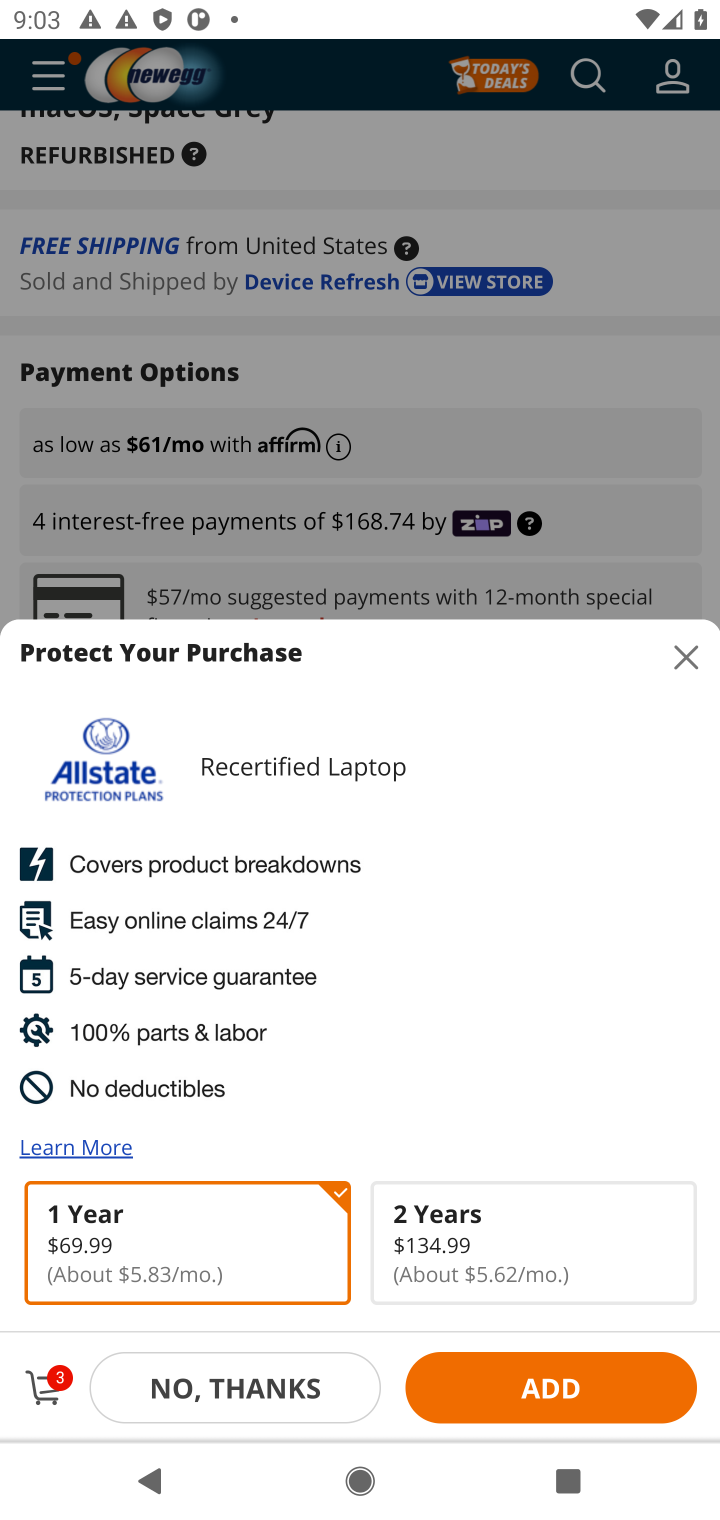
Step 32: click (47, 1383)
Your task to perform on an android device: Add "macbook" to the cart on newegg.com, then select checkout. Image 33: 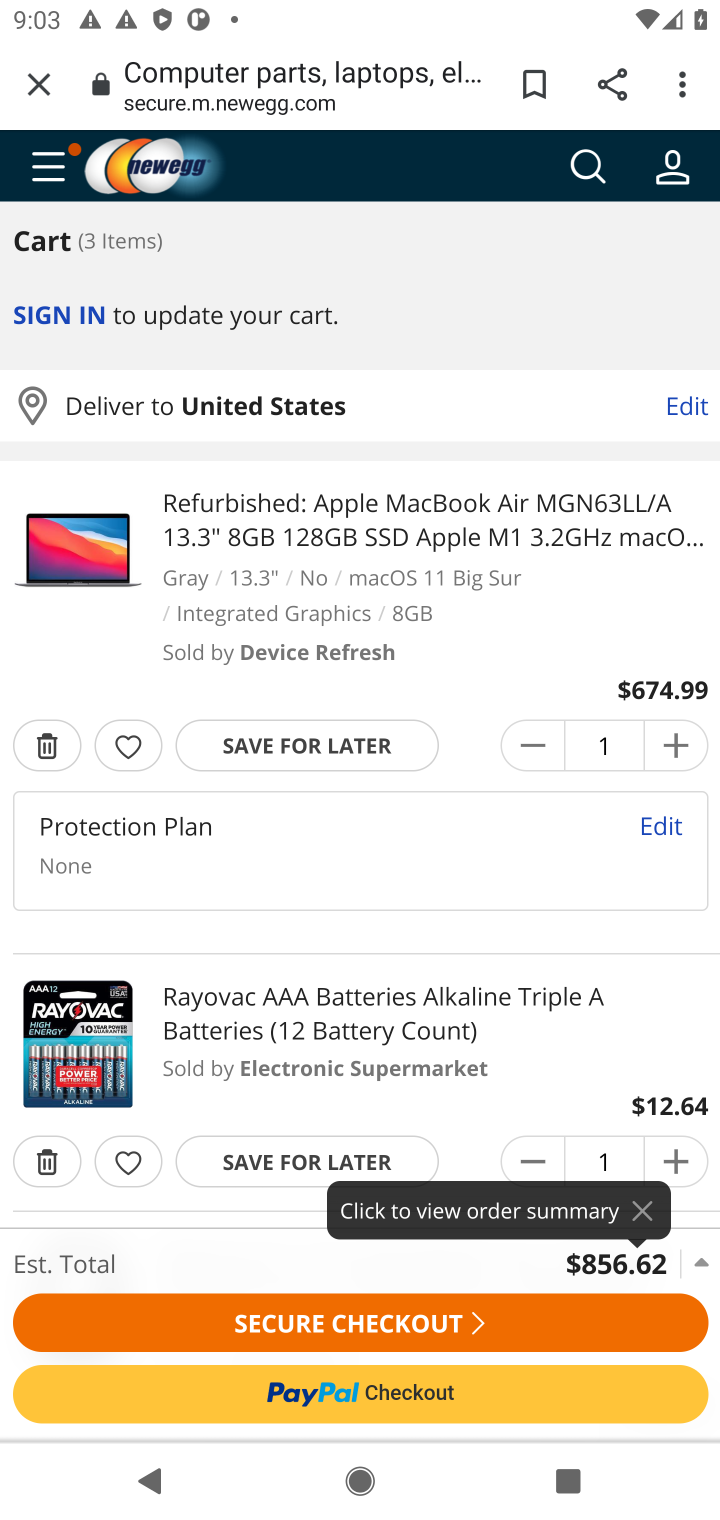
Step 33: click (37, 1157)
Your task to perform on an android device: Add "macbook" to the cart on newegg.com, then select checkout. Image 34: 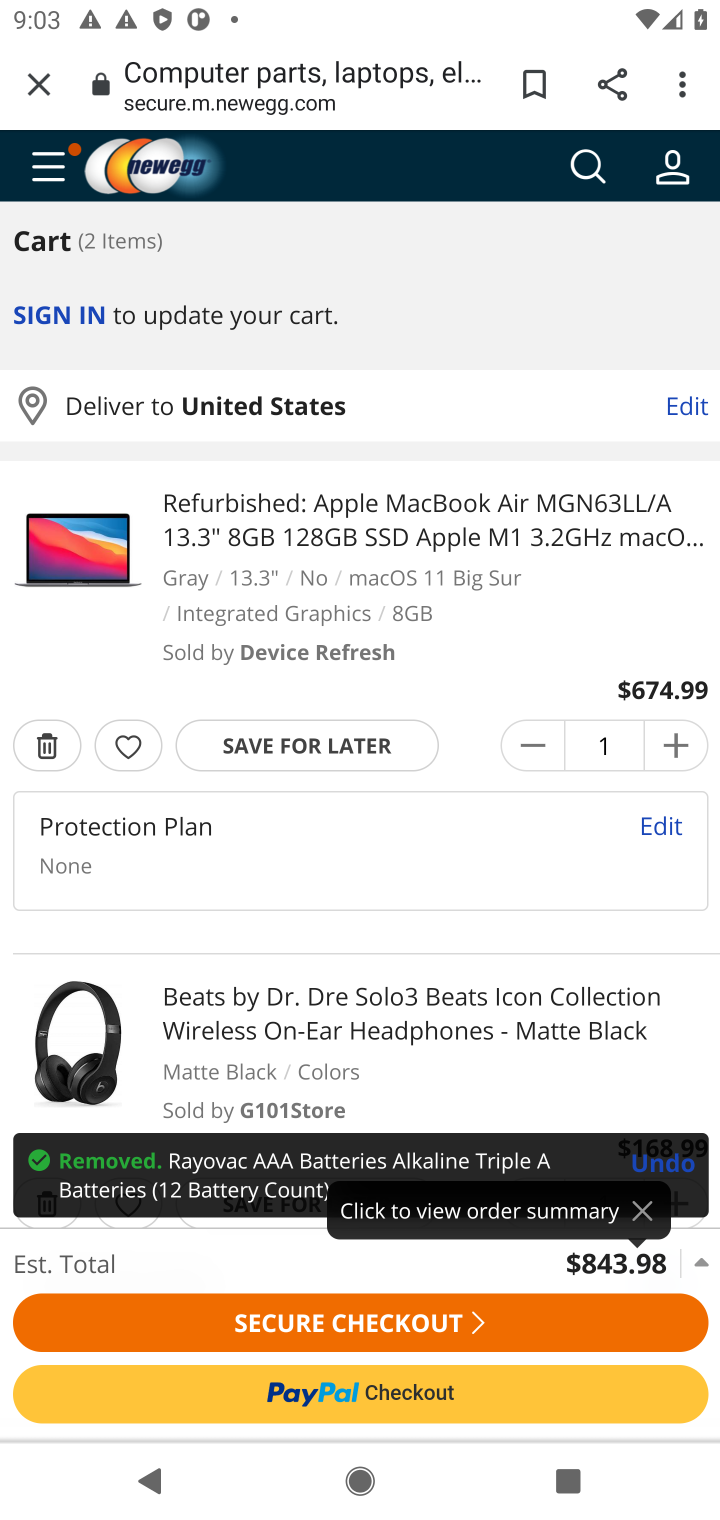
Step 34: drag from (380, 1044) to (533, 560)
Your task to perform on an android device: Add "macbook" to the cart on newegg.com, then select checkout. Image 35: 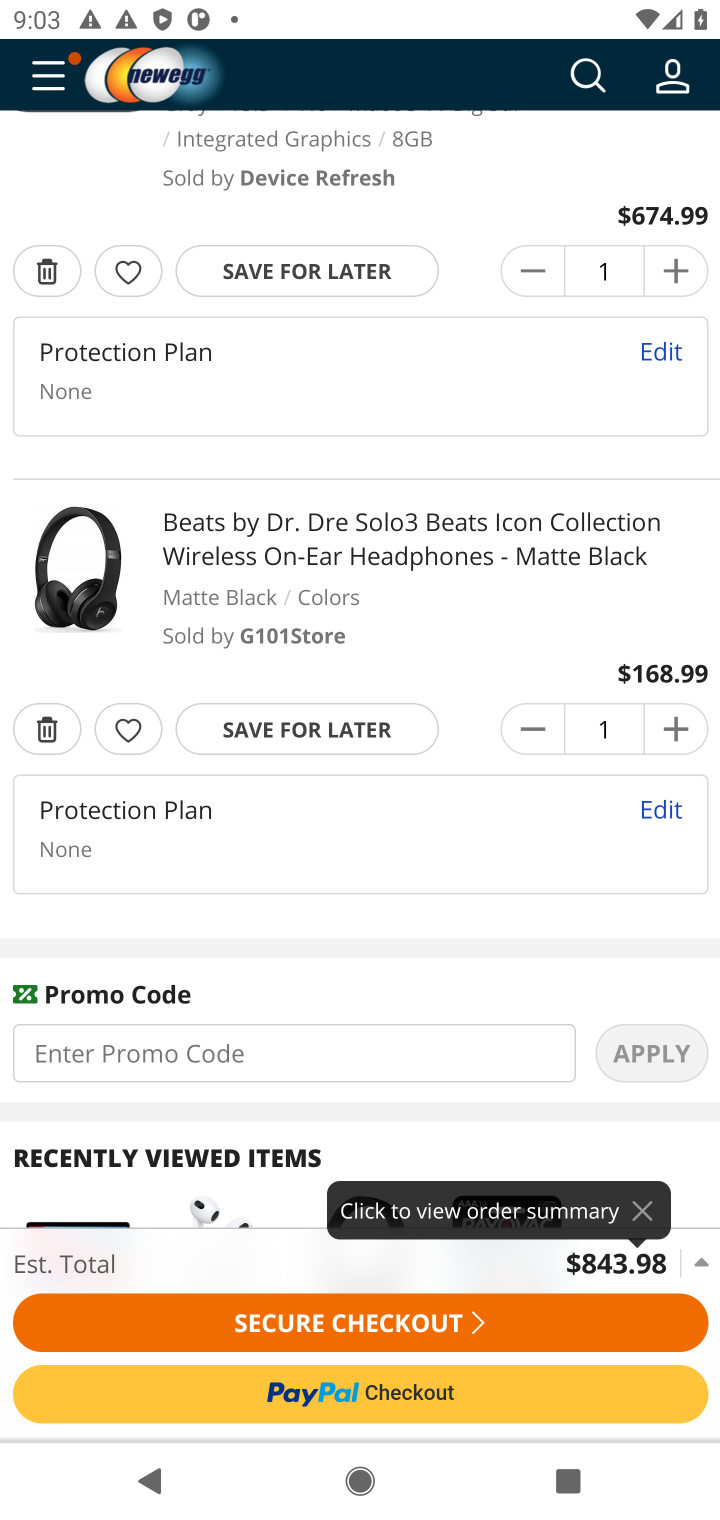
Step 35: click (42, 731)
Your task to perform on an android device: Add "macbook" to the cart on newegg.com, then select checkout. Image 36: 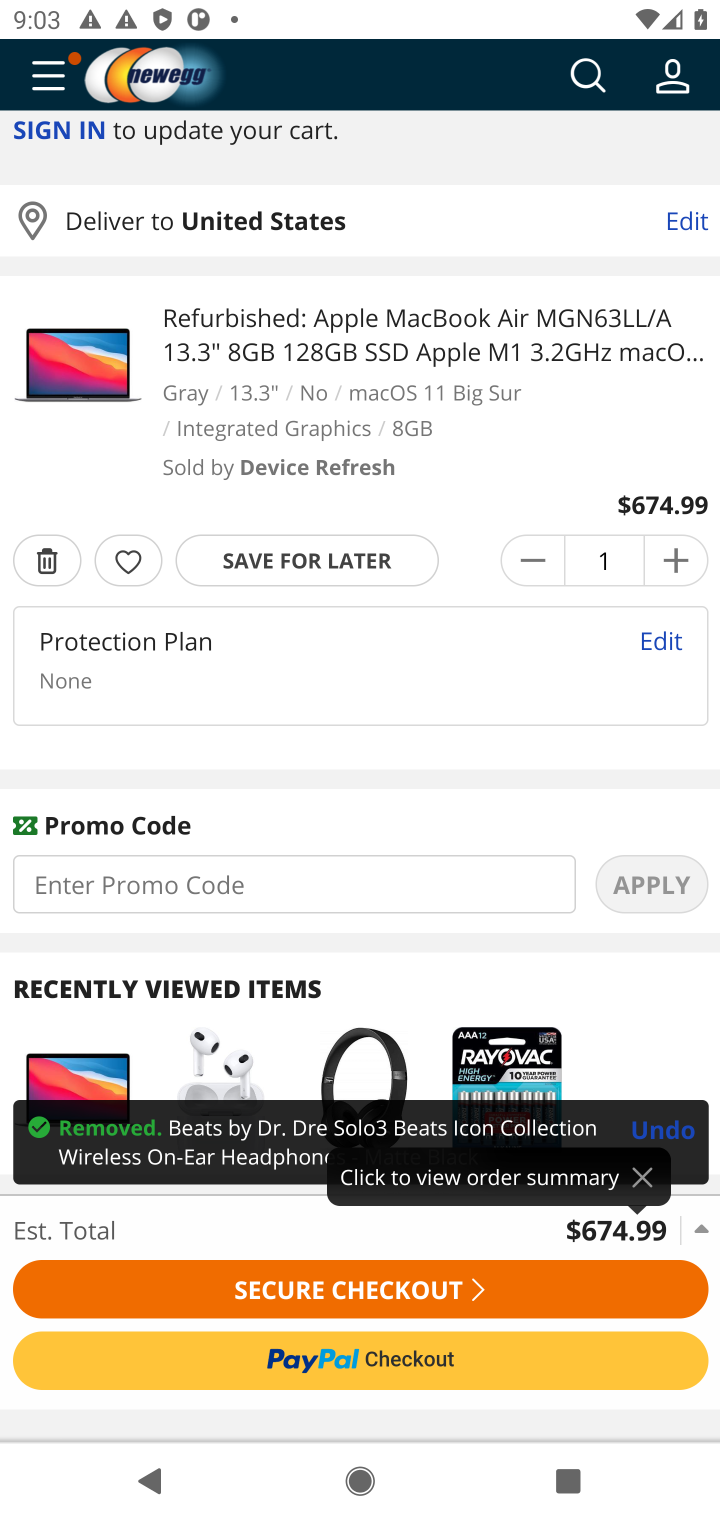
Step 36: click (390, 1292)
Your task to perform on an android device: Add "macbook" to the cart on newegg.com, then select checkout. Image 37: 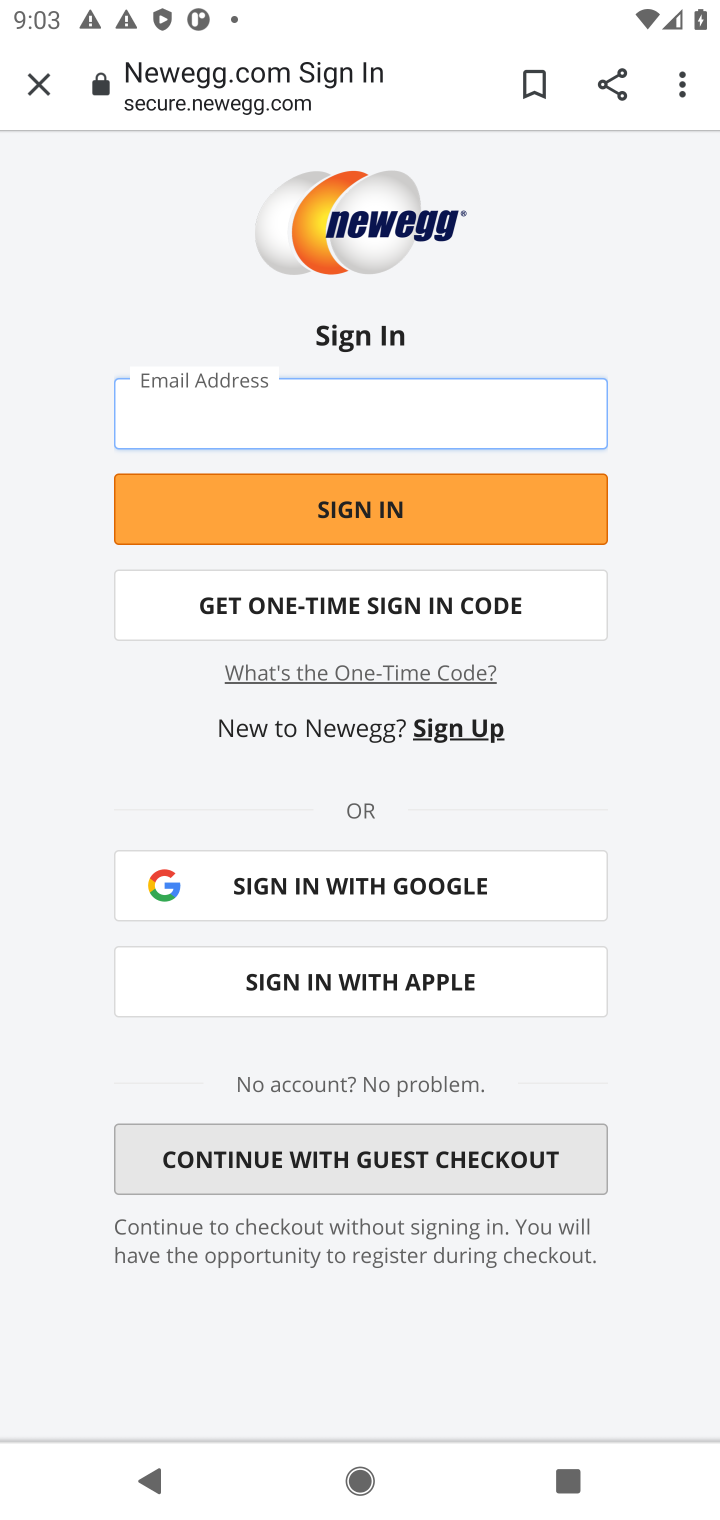
Step 37: task complete